Your task to perform on an android device: Add "razer thresher" to the cart on target, then select checkout. Image 0: 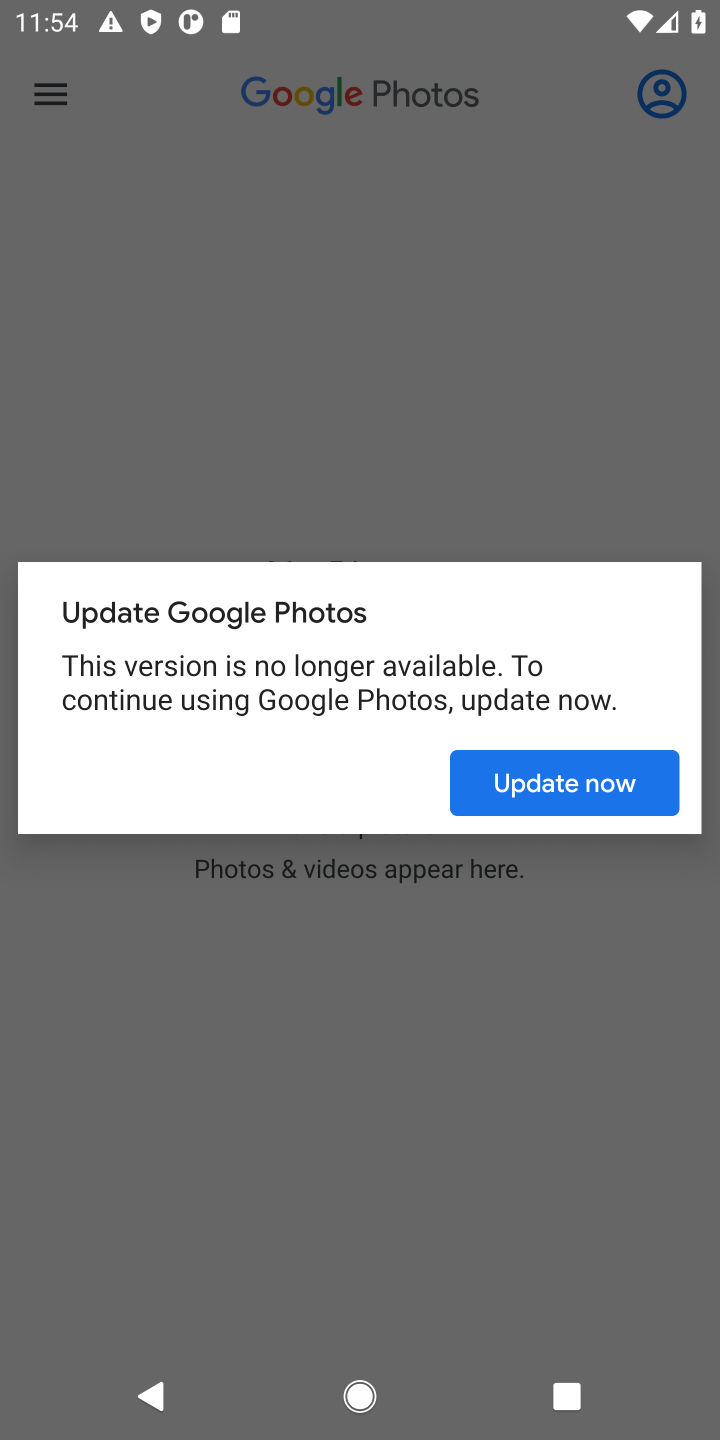
Step 0: press home button
Your task to perform on an android device: Add "razer thresher" to the cart on target, then select checkout. Image 1: 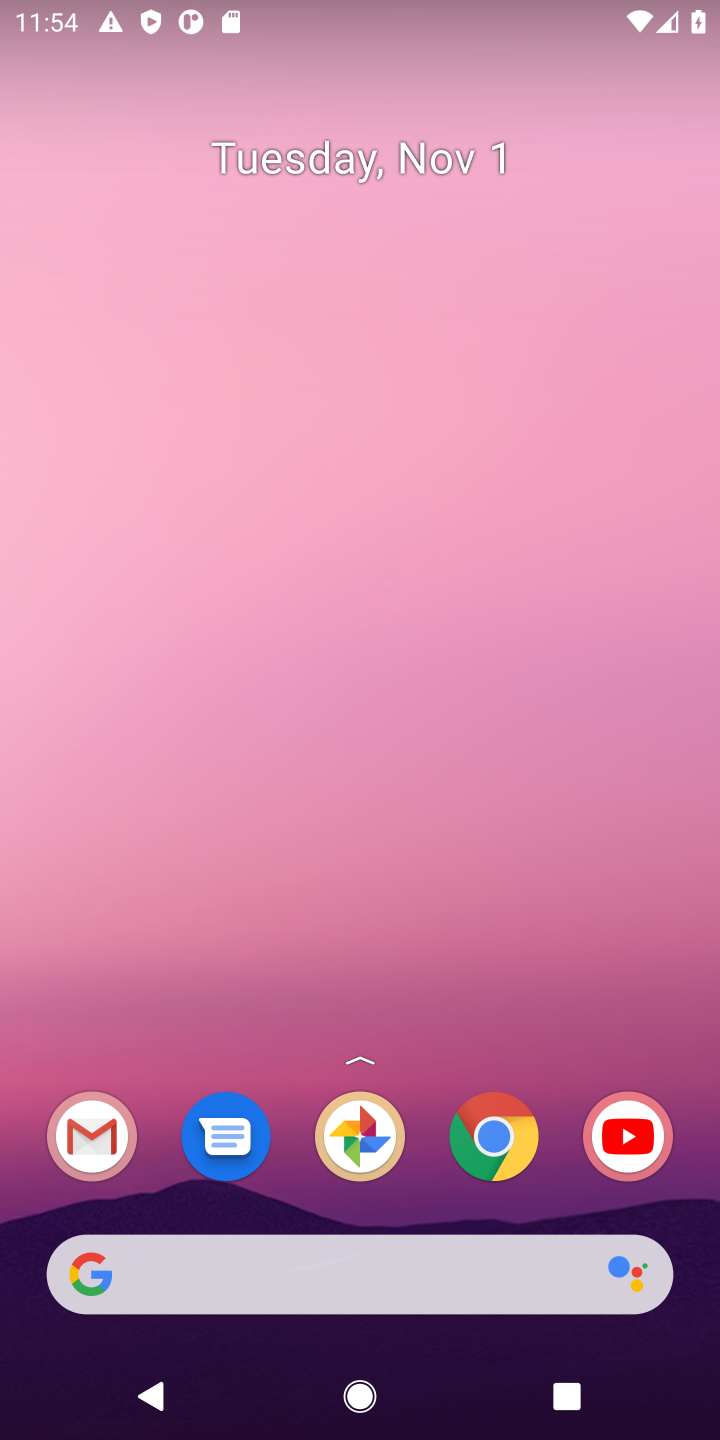
Step 1: click (491, 1148)
Your task to perform on an android device: Add "razer thresher" to the cart on target, then select checkout. Image 2: 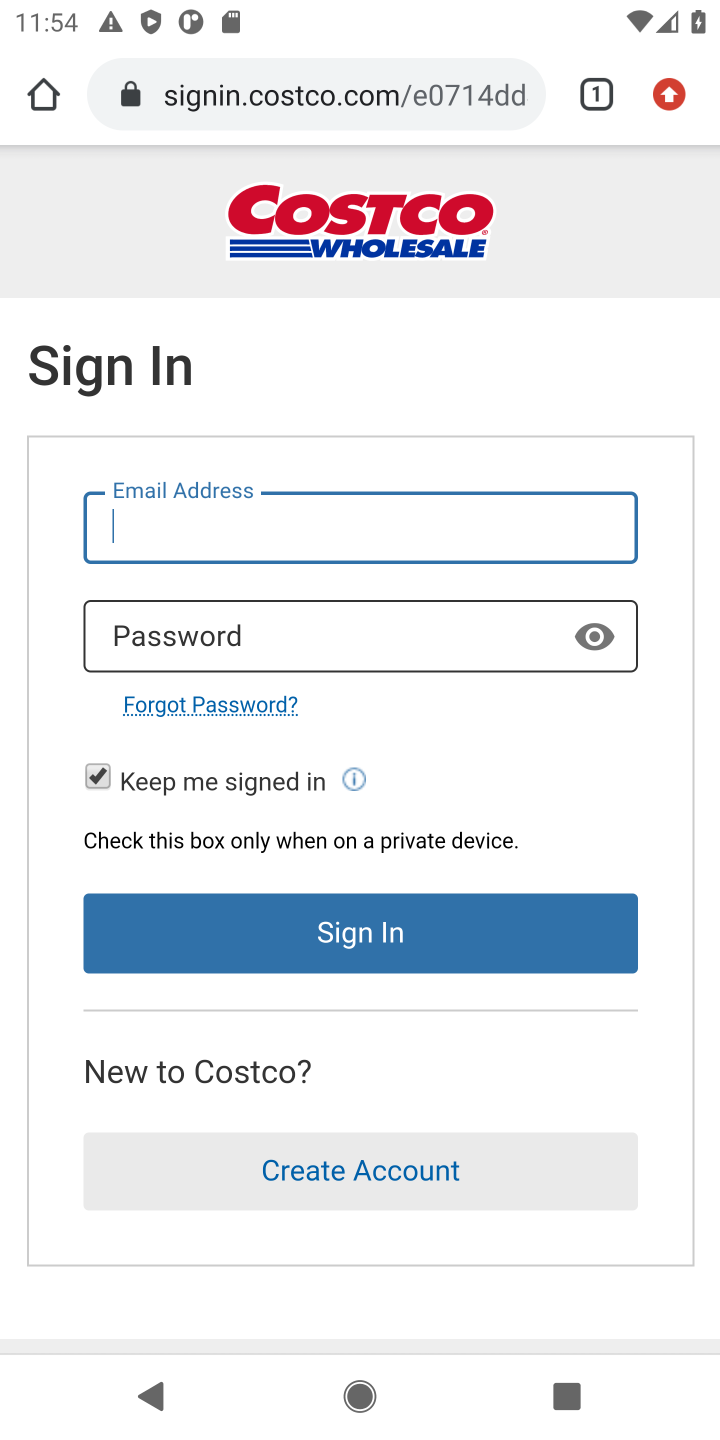
Step 2: click (311, 101)
Your task to perform on an android device: Add "razer thresher" to the cart on target, then select checkout. Image 3: 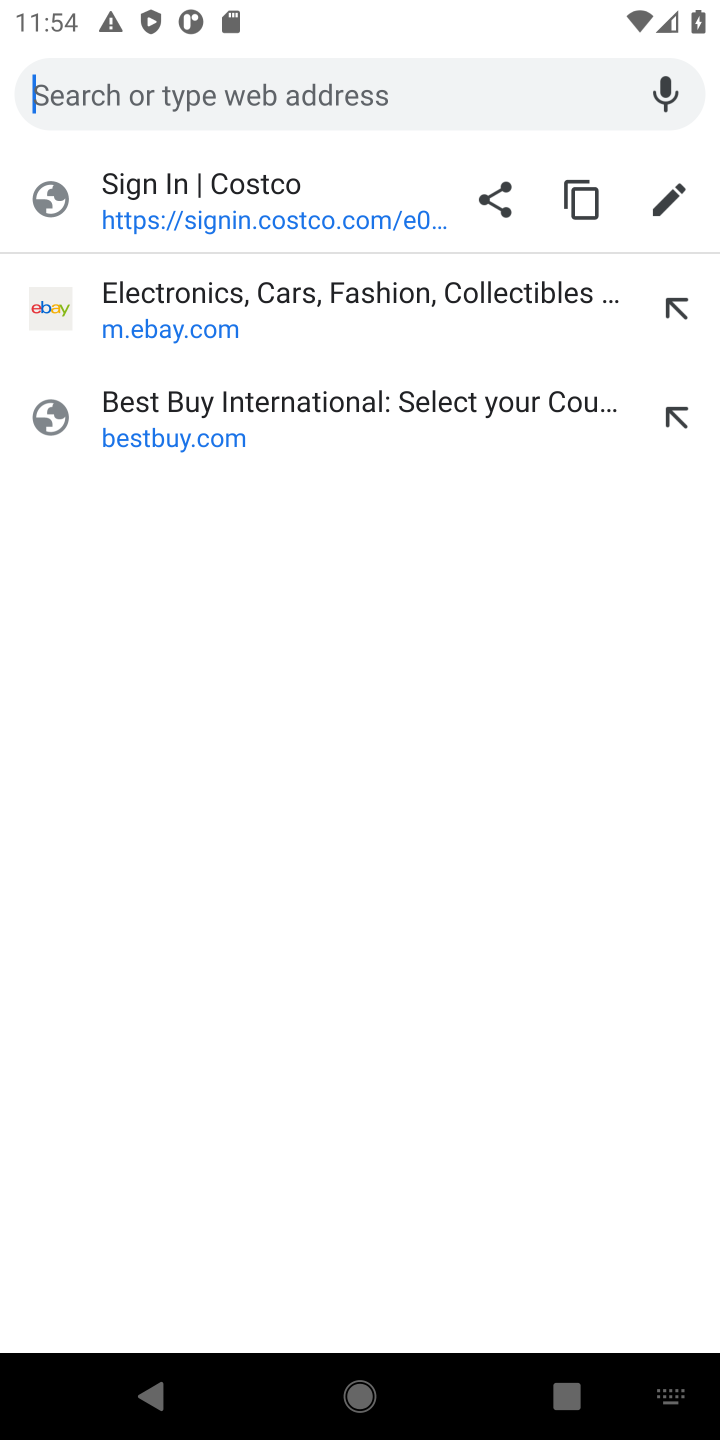
Step 3: type "target"
Your task to perform on an android device: Add "razer thresher" to the cart on target, then select checkout. Image 4: 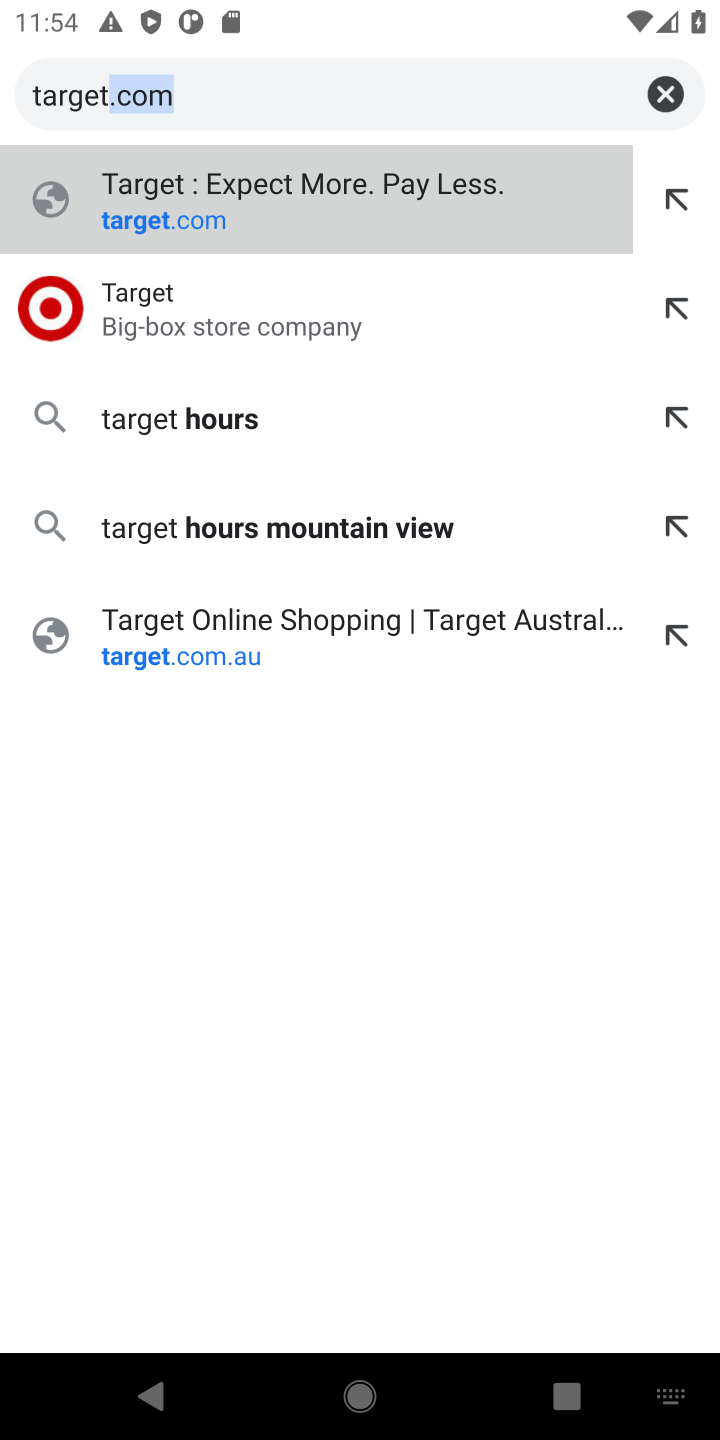
Step 4: type ""
Your task to perform on an android device: Add "razer thresher" to the cart on target, then select checkout. Image 5: 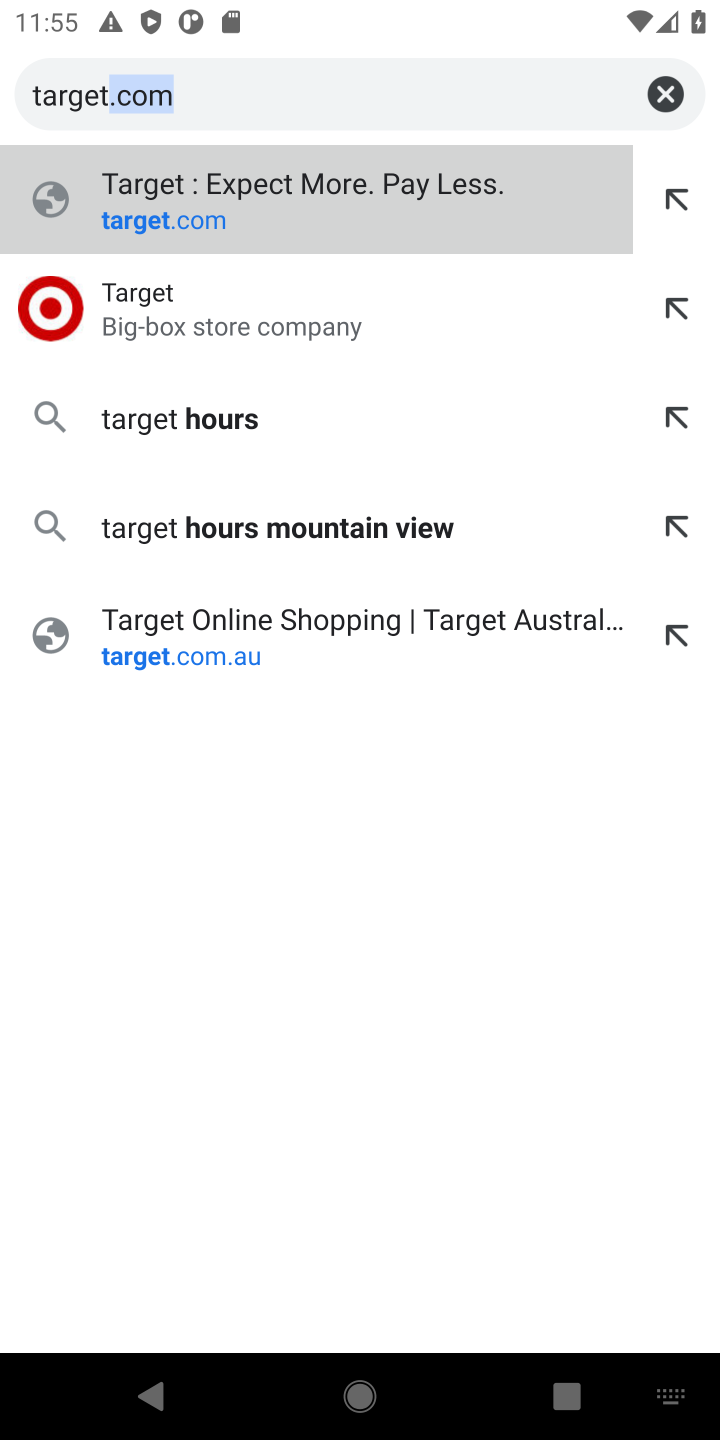
Step 5: press enter
Your task to perform on an android device: Add "razer thresher" to the cart on target, then select checkout. Image 6: 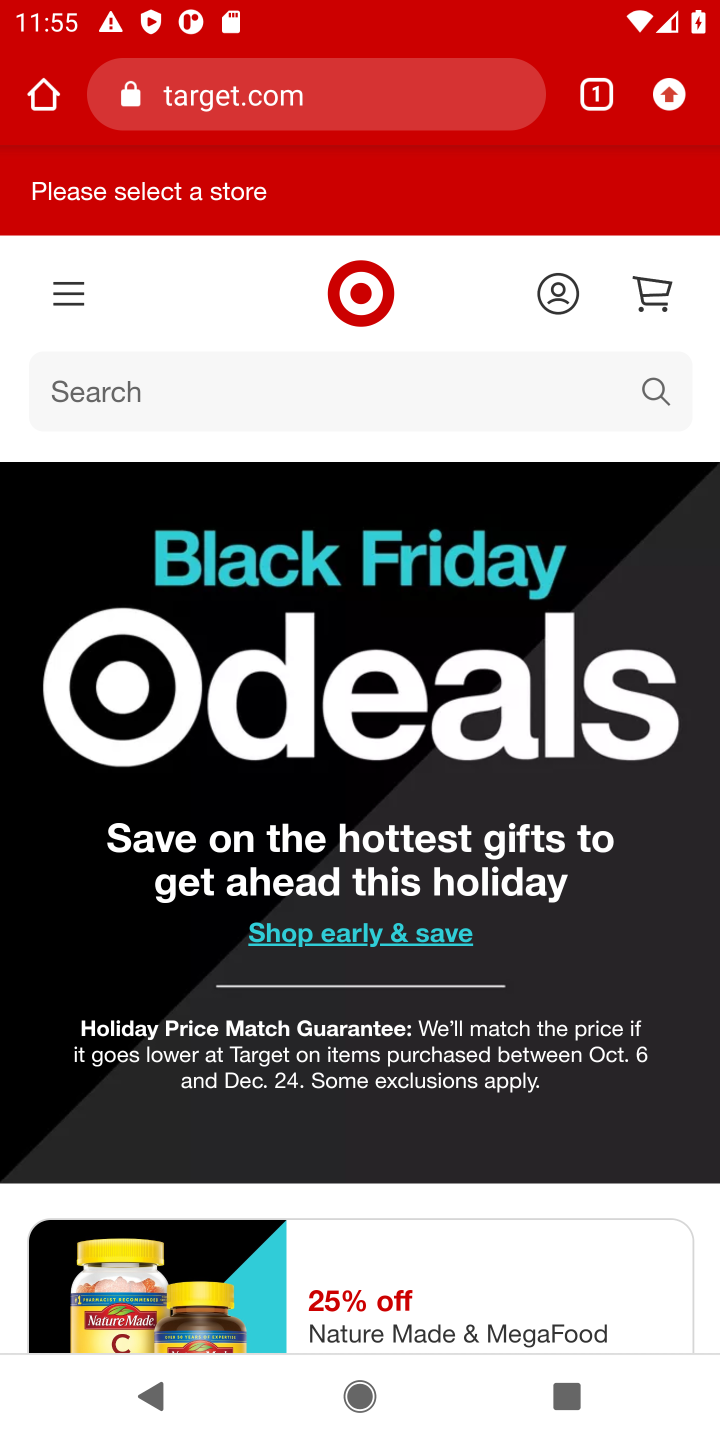
Step 6: click (365, 388)
Your task to perform on an android device: Add "razer thresher" to the cart on target, then select checkout. Image 7: 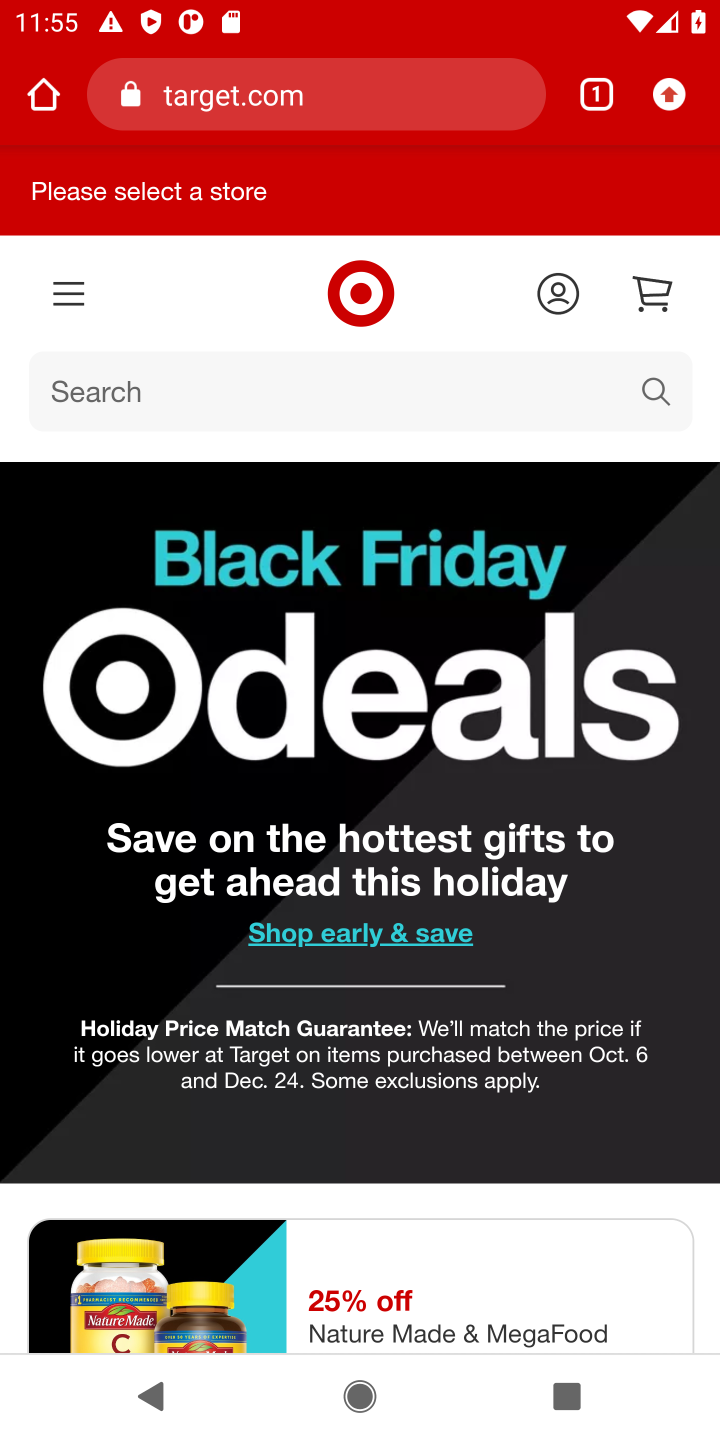
Step 7: type "razer thresher"
Your task to perform on an android device: Add "razer thresher" to the cart on target, then select checkout. Image 8: 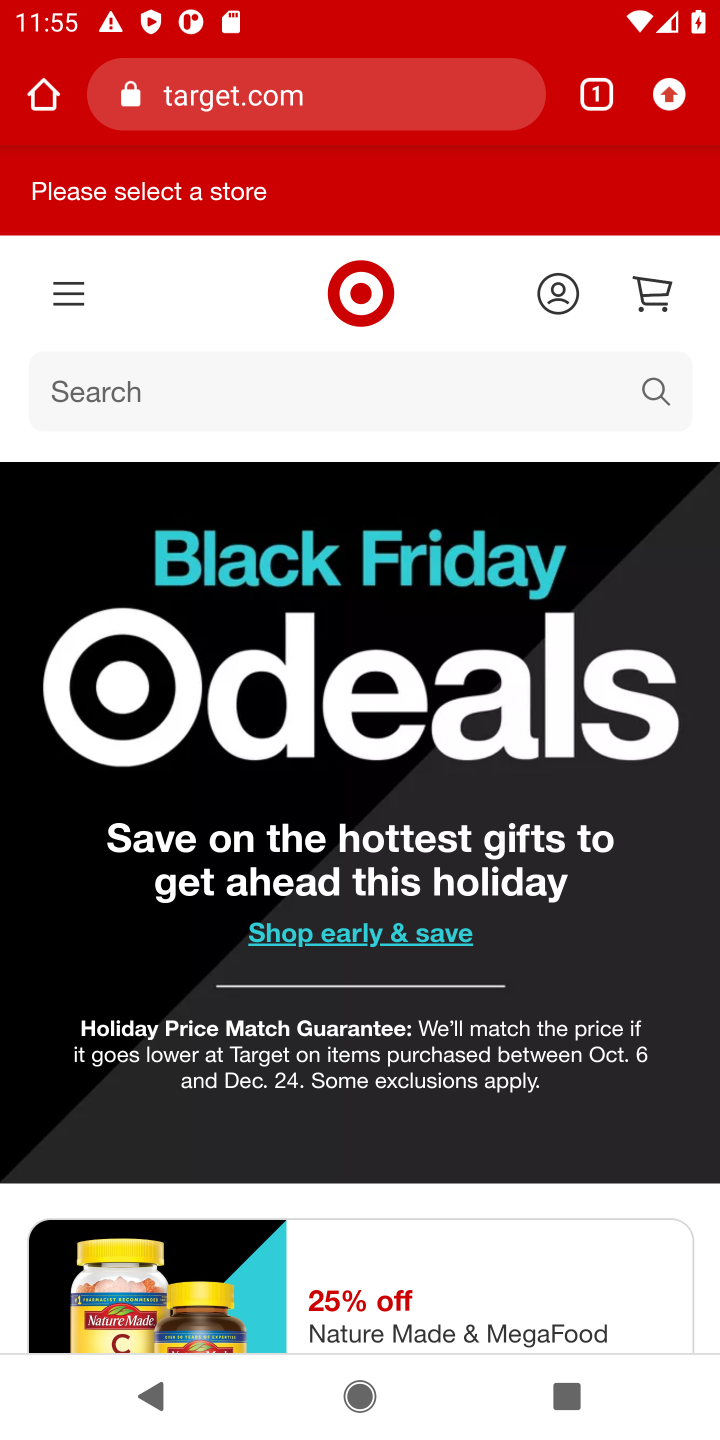
Step 8: click (380, 386)
Your task to perform on an android device: Add "razer thresher" to the cart on target, then select checkout. Image 9: 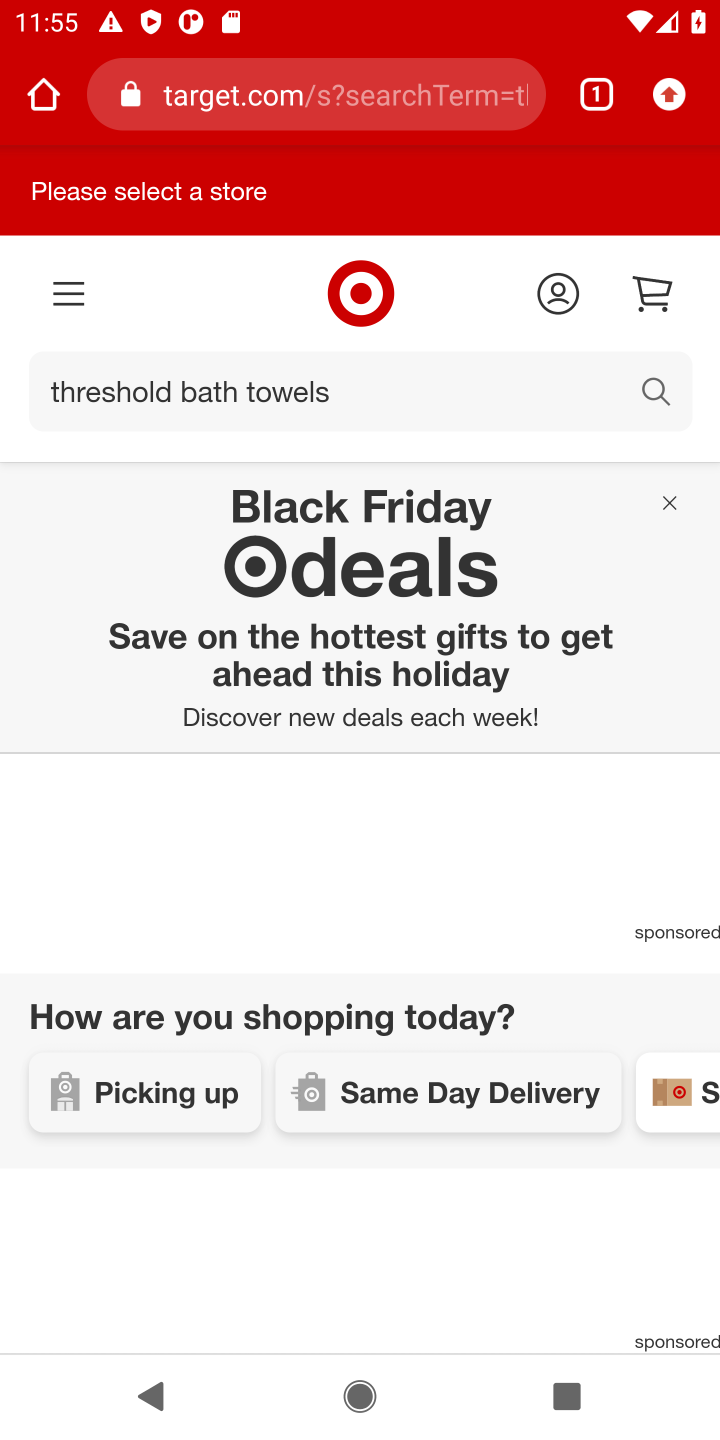
Step 9: click (526, 400)
Your task to perform on an android device: Add "razer thresher" to the cart on target, then select checkout. Image 10: 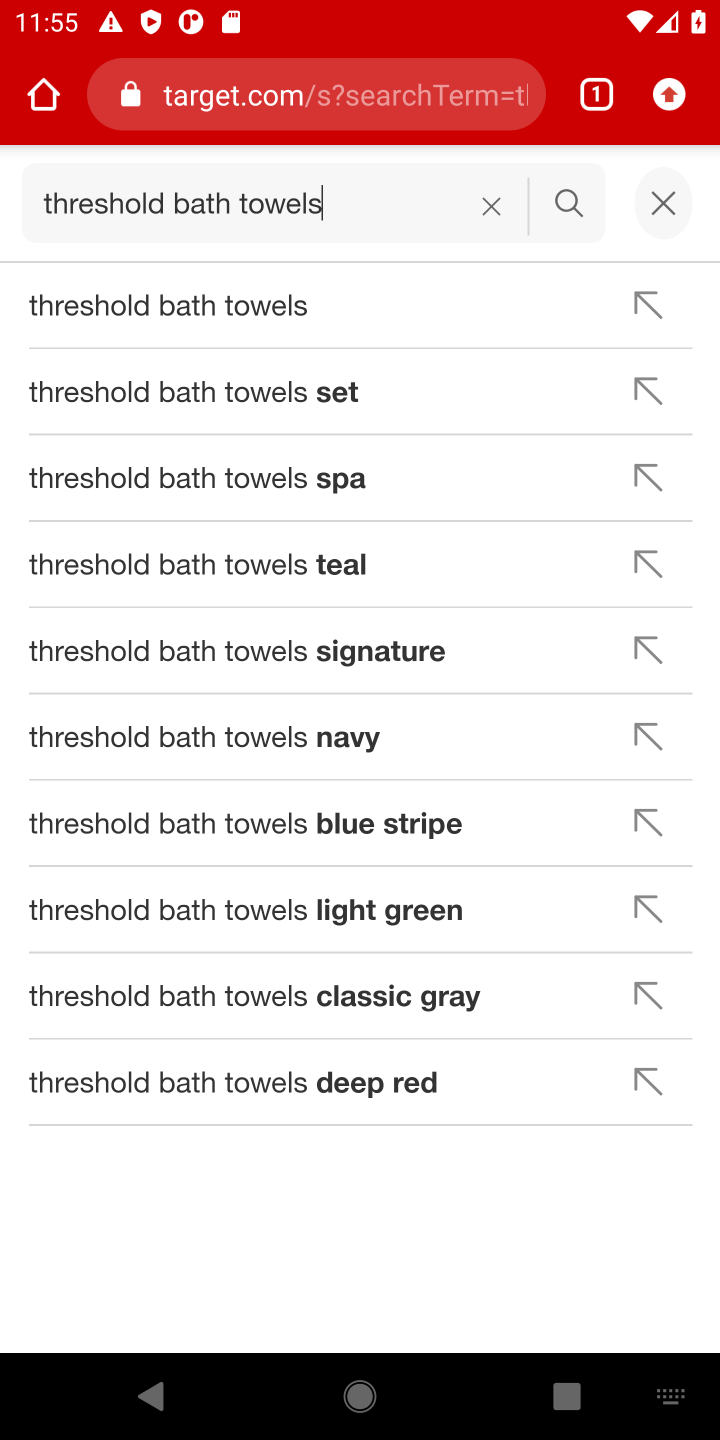
Step 10: click (488, 204)
Your task to perform on an android device: Add "razer thresher" to the cart on target, then select checkout. Image 11: 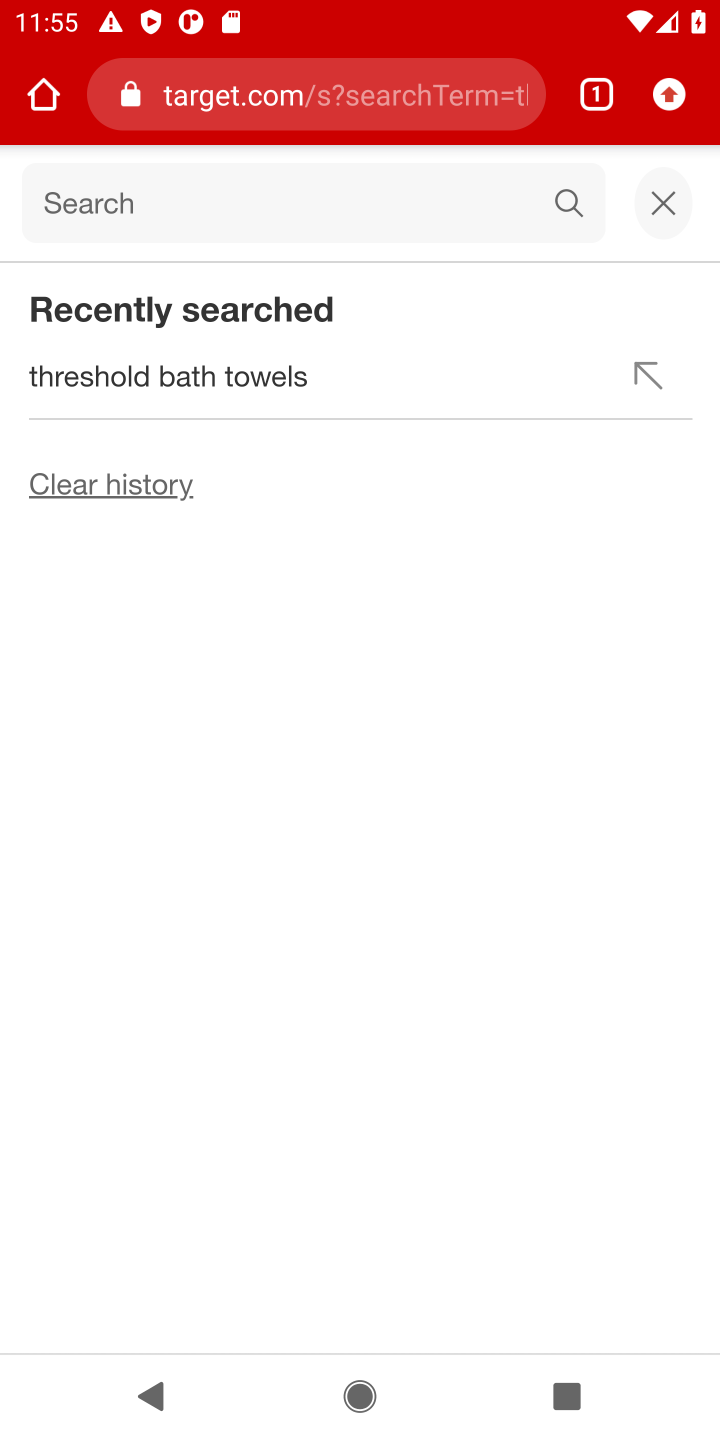
Step 11: type "razer thresher"
Your task to perform on an android device: Add "razer thresher" to the cart on target, then select checkout. Image 12: 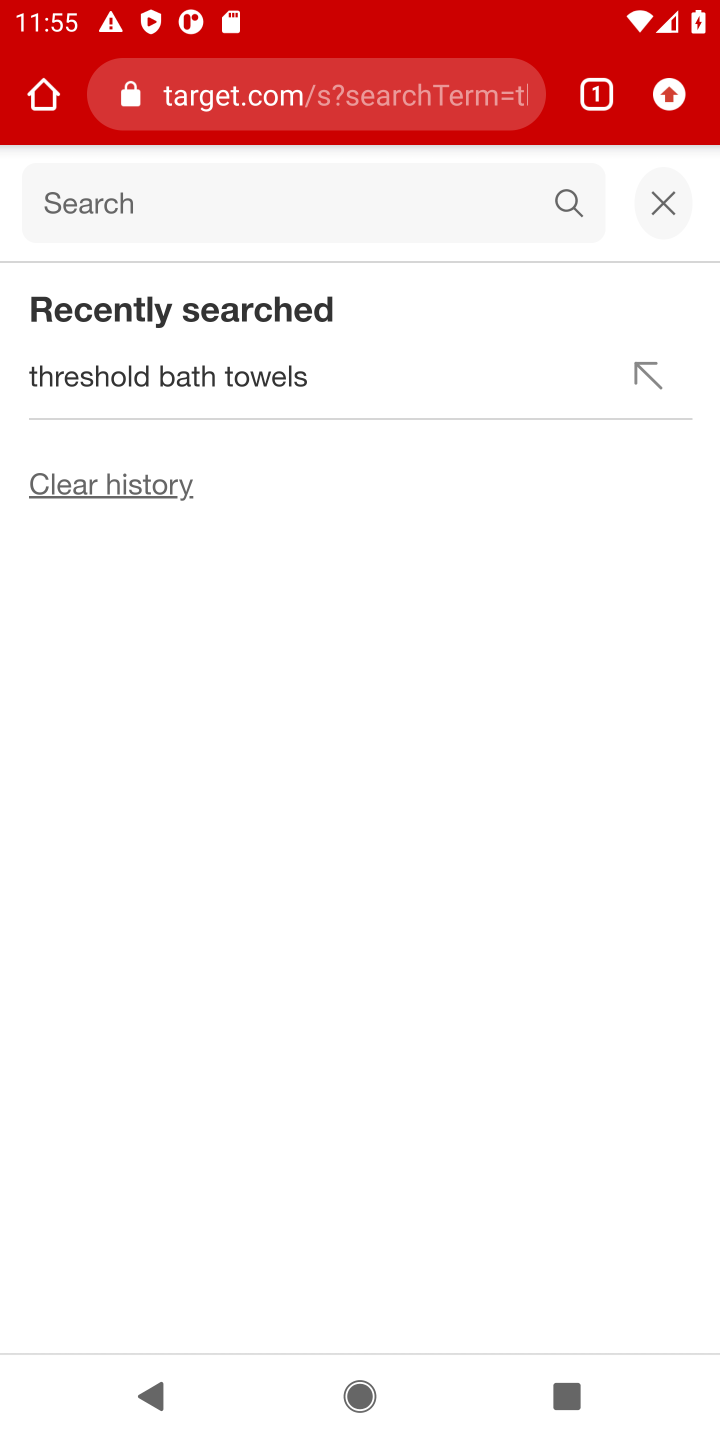
Step 12: type ""
Your task to perform on an android device: Add "razer thresher" to the cart on target, then select checkout. Image 13: 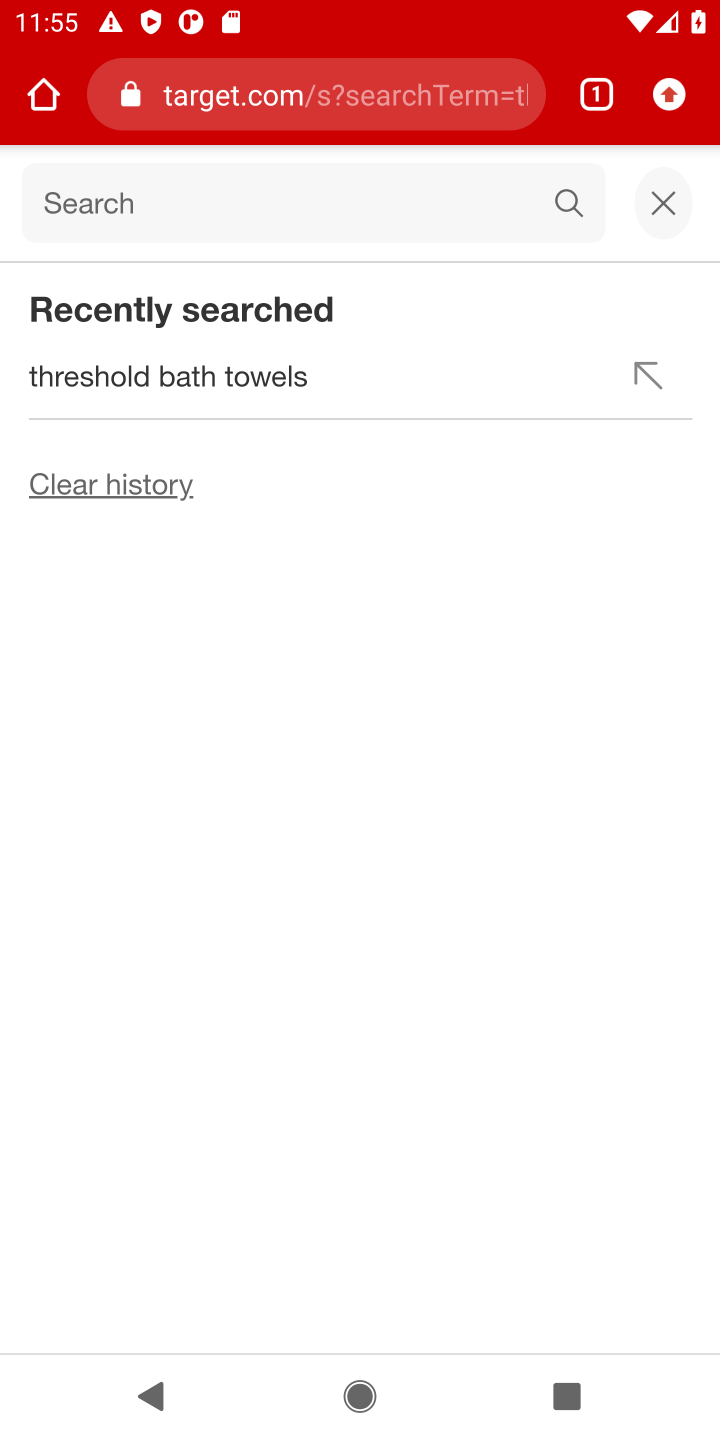
Step 13: click (420, 221)
Your task to perform on an android device: Add "razer thresher" to the cart on target, then select checkout. Image 14: 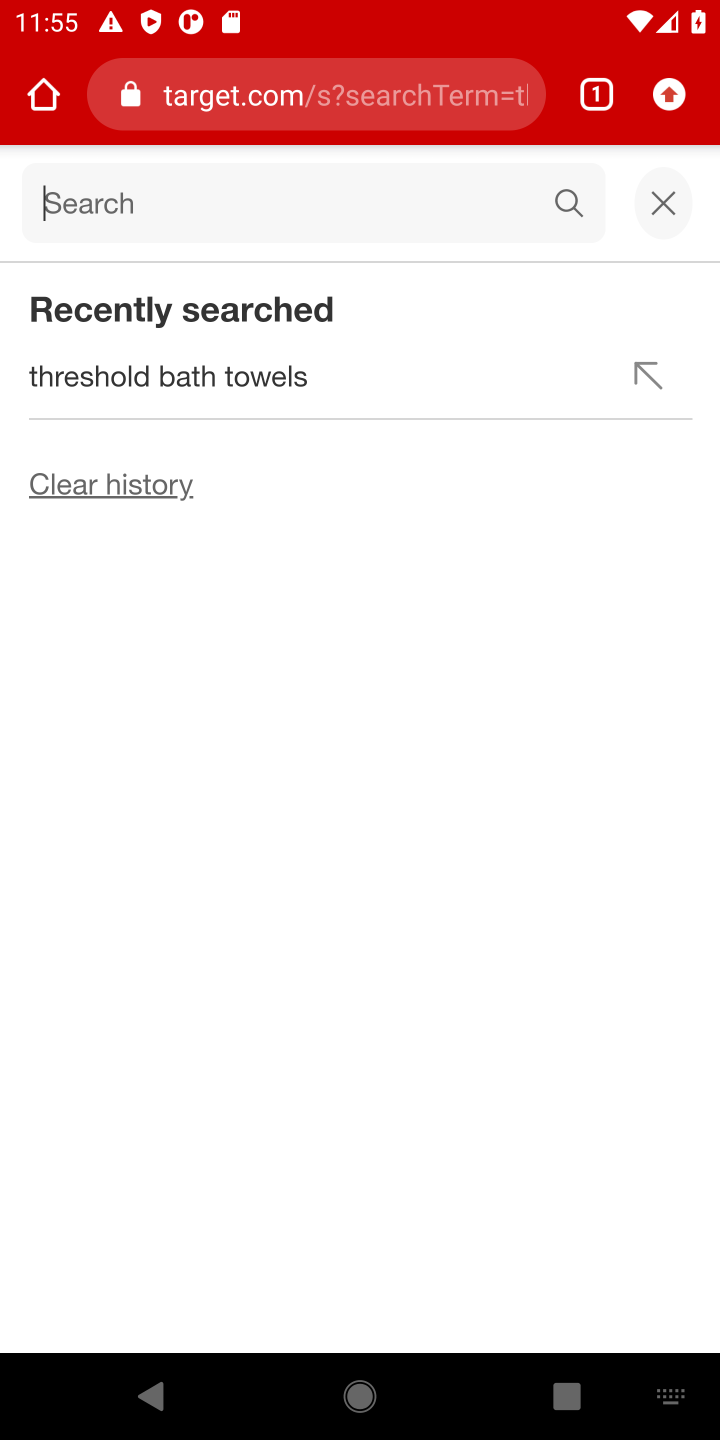
Step 14: type "razer thresher"
Your task to perform on an android device: Add "razer thresher" to the cart on target, then select checkout. Image 15: 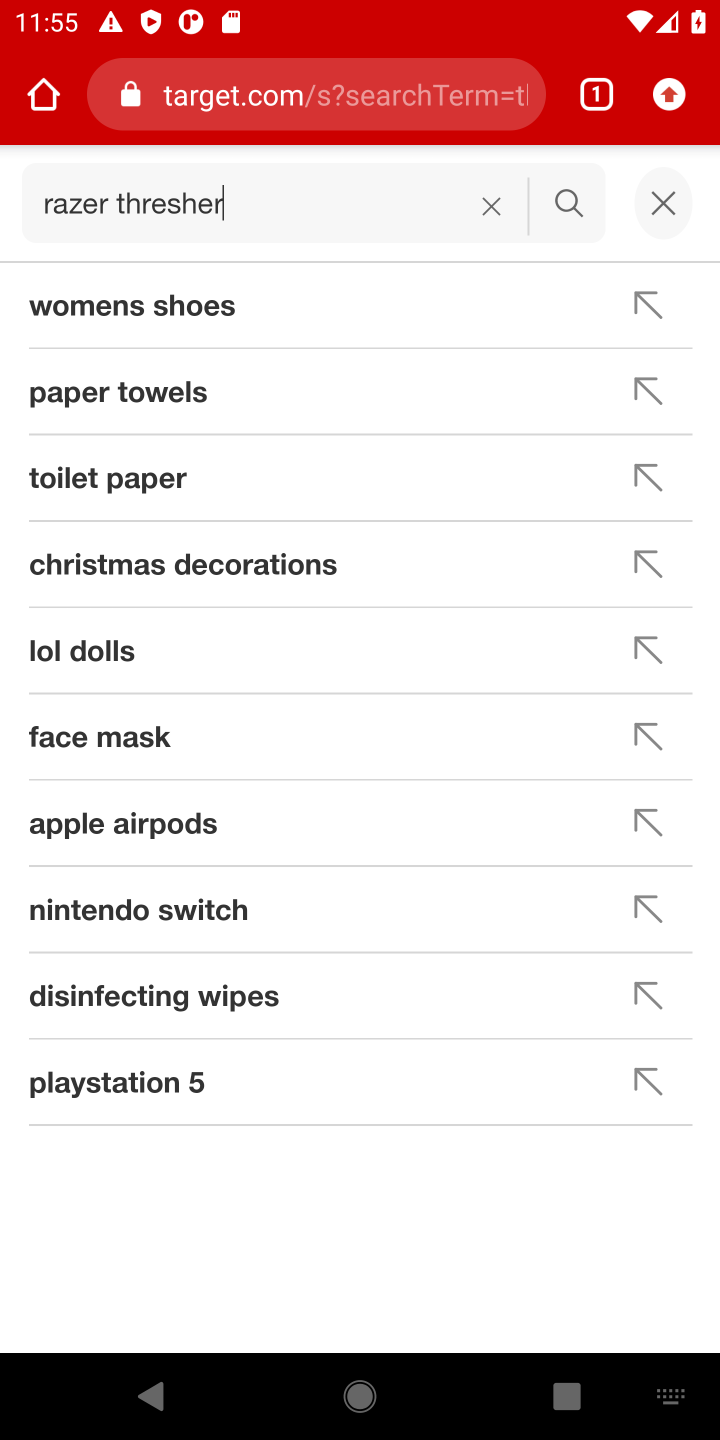
Step 15: type ""
Your task to perform on an android device: Add "razer thresher" to the cart on target, then select checkout. Image 16: 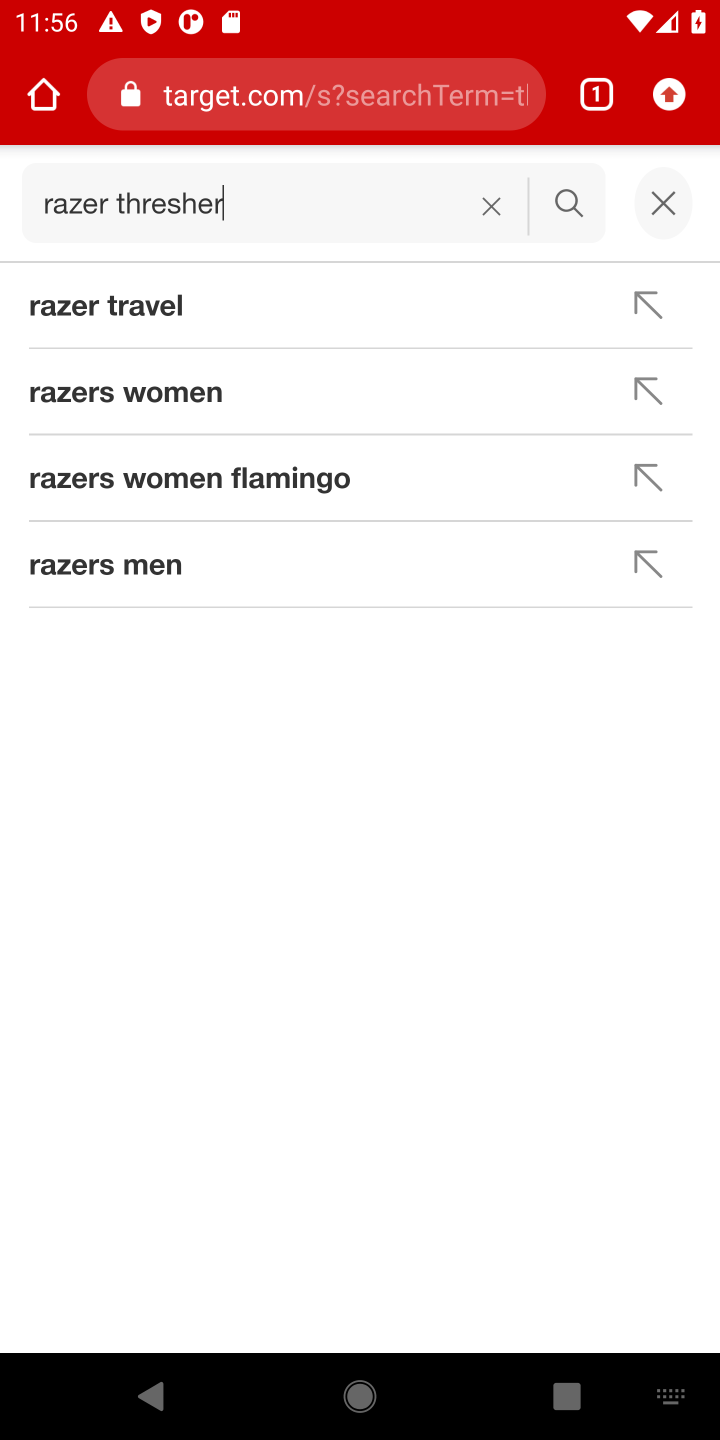
Step 16: press enter
Your task to perform on an android device: Add "razer thresher" to the cart on target, then select checkout. Image 17: 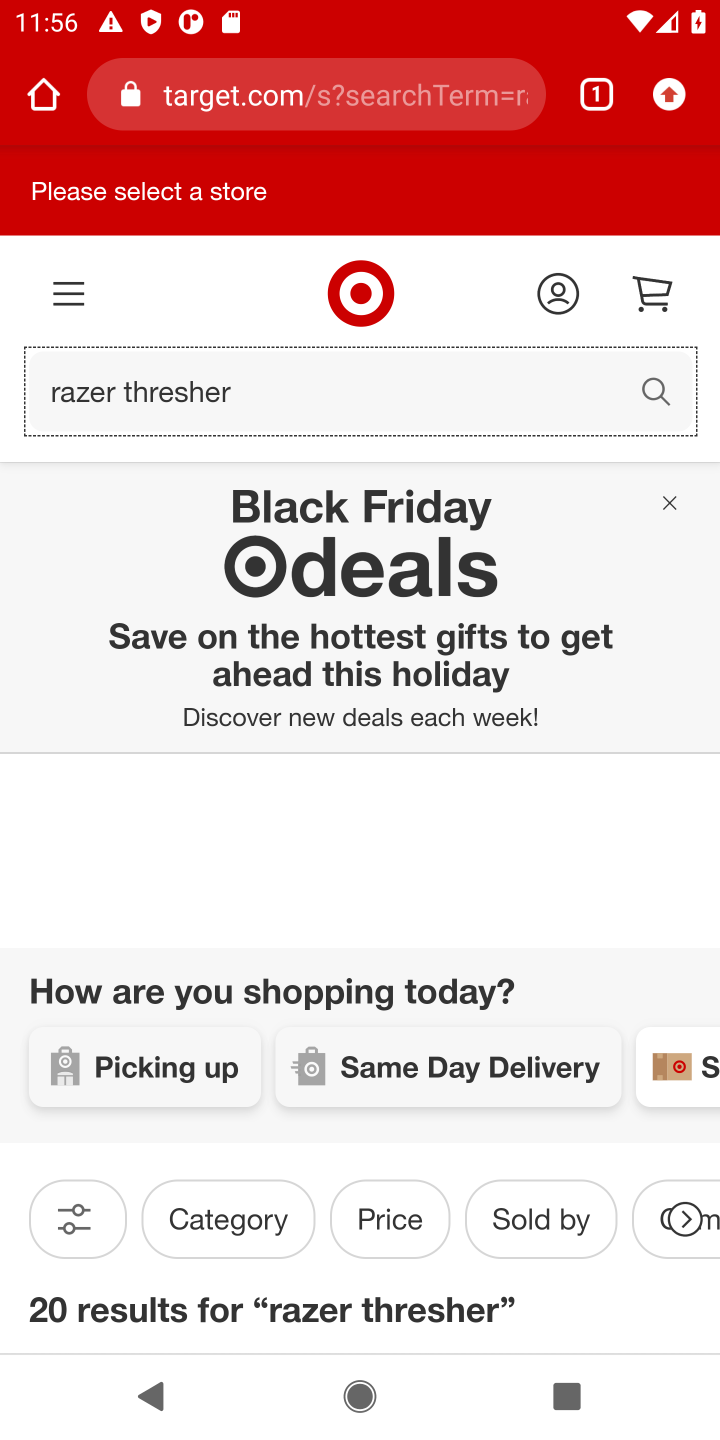
Step 17: drag from (322, 1193) to (299, 564)
Your task to perform on an android device: Add "razer thresher" to the cart on target, then select checkout. Image 18: 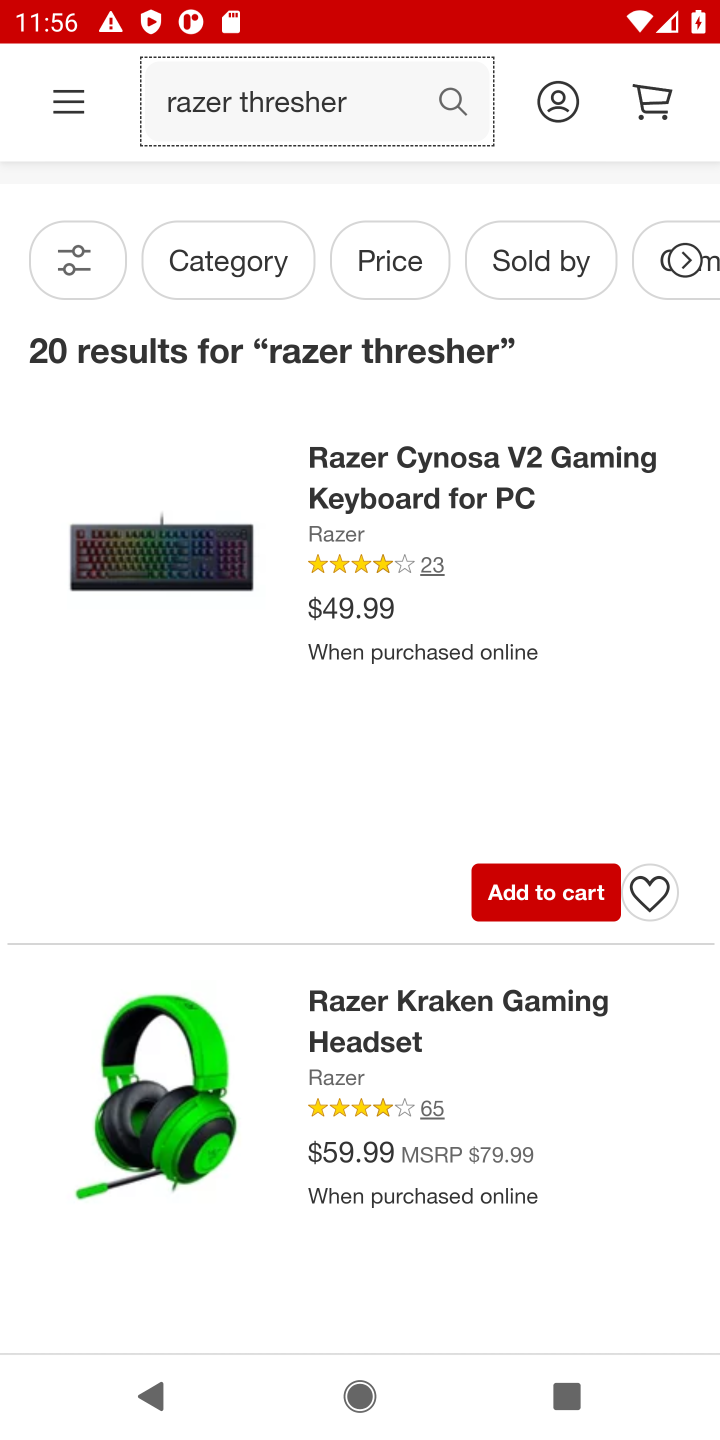
Step 18: drag from (368, 1074) to (371, 425)
Your task to perform on an android device: Add "razer thresher" to the cart on target, then select checkout. Image 19: 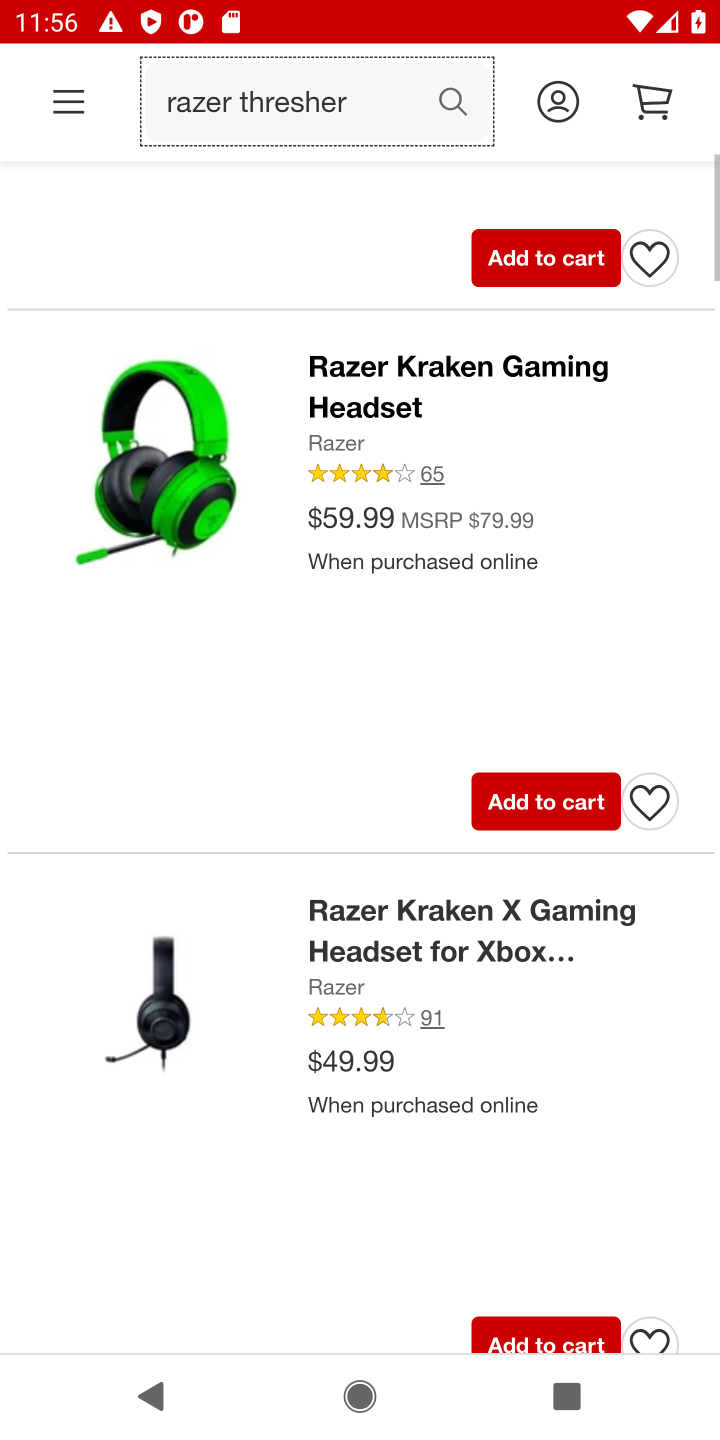
Step 19: drag from (414, 1218) to (456, 490)
Your task to perform on an android device: Add "razer thresher" to the cart on target, then select checkout. Image 20: 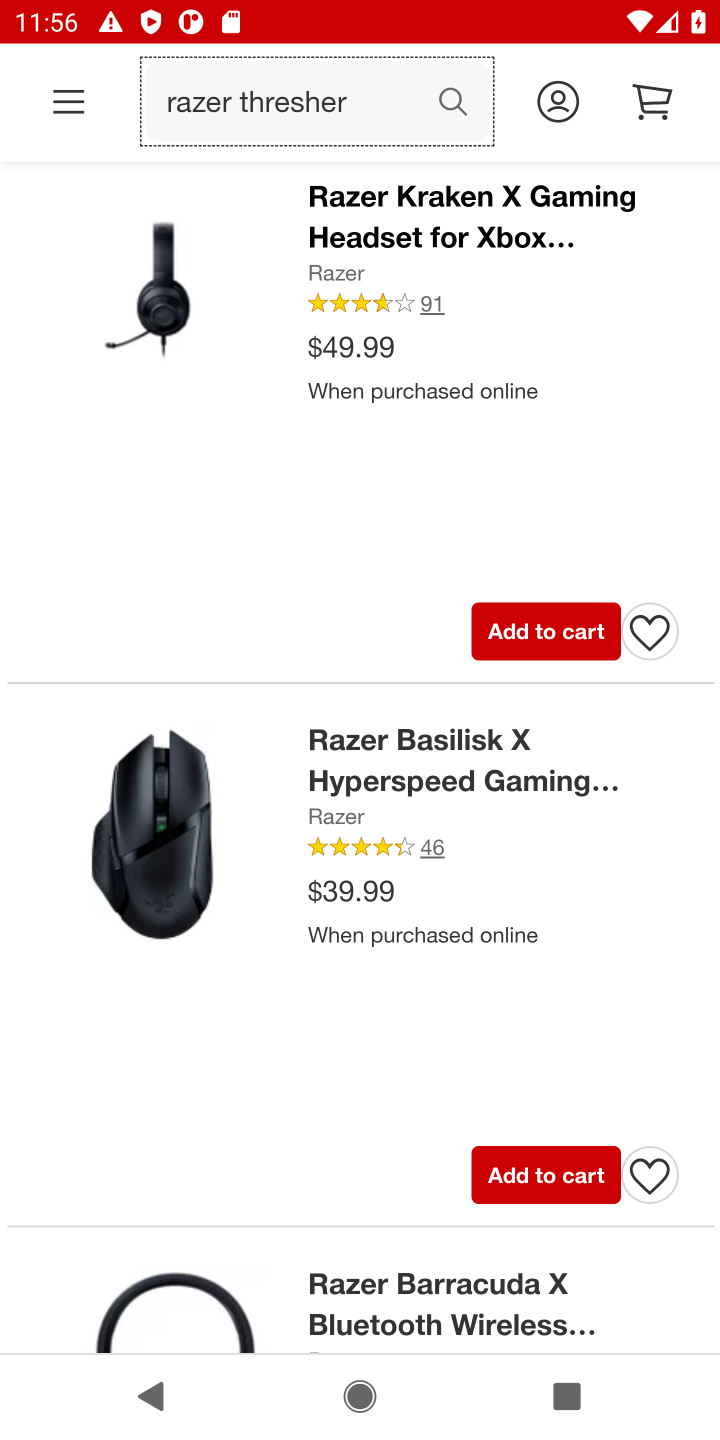
Step 20: drag from (478, 1051) to (464, 364)
Your task to perform on an android device: Add "razer thresher" to the cart on target, then select checkout. Image 21: 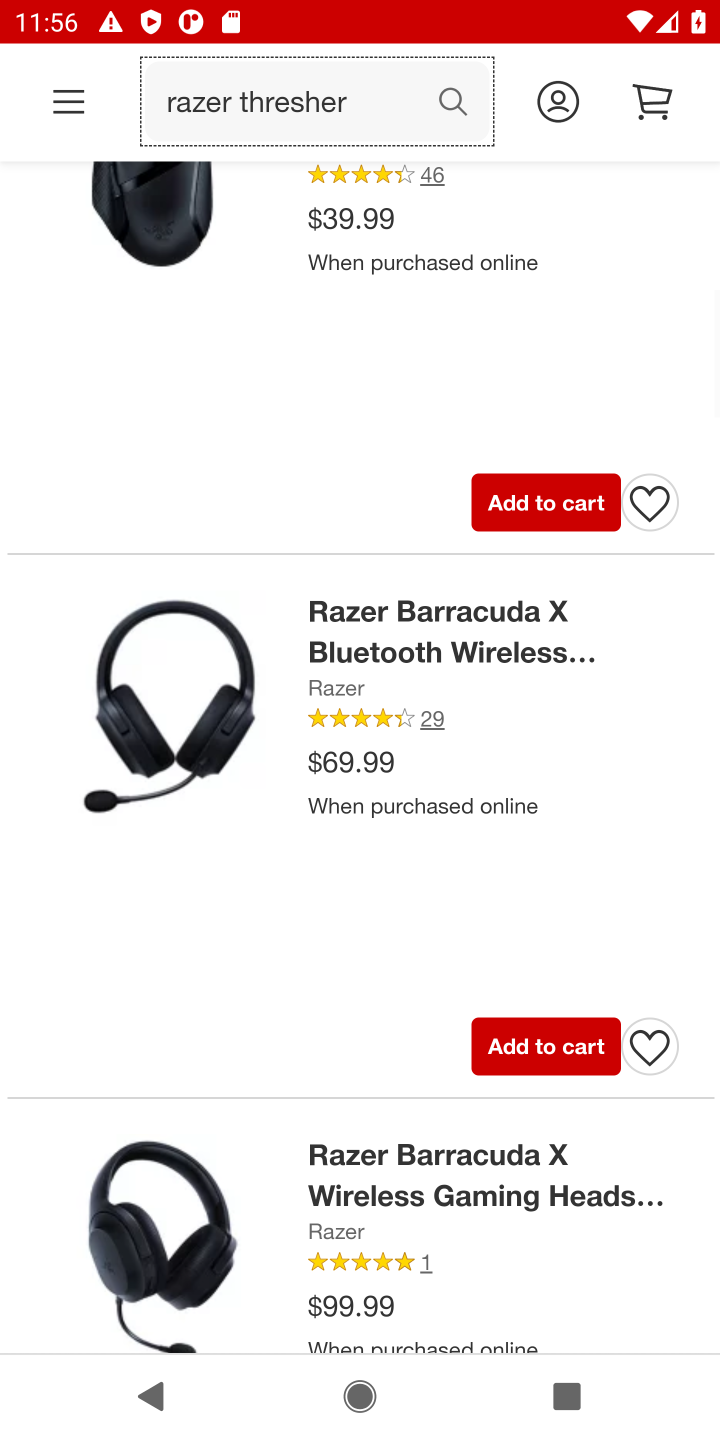
Step 21: drag from (486, 1080) to (471, 418)
Your task to perform on an android device: Add "razer thresher" to the cart on target, then select checkout. Image 22: 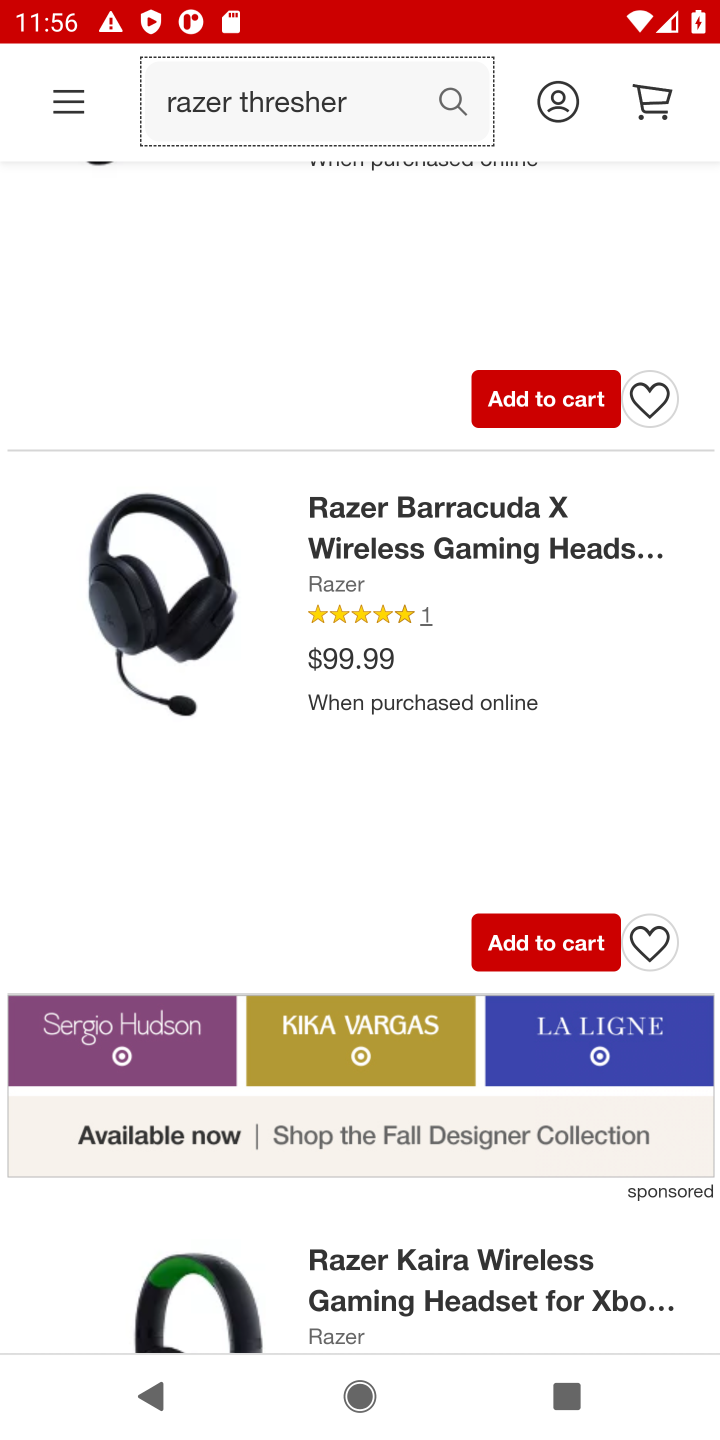
Step 22: drag from (458, 1259) to (454, 475)
Your task to perform on an android device: Add "razer thresher" to the cart on target, then select checkout. Image 23: 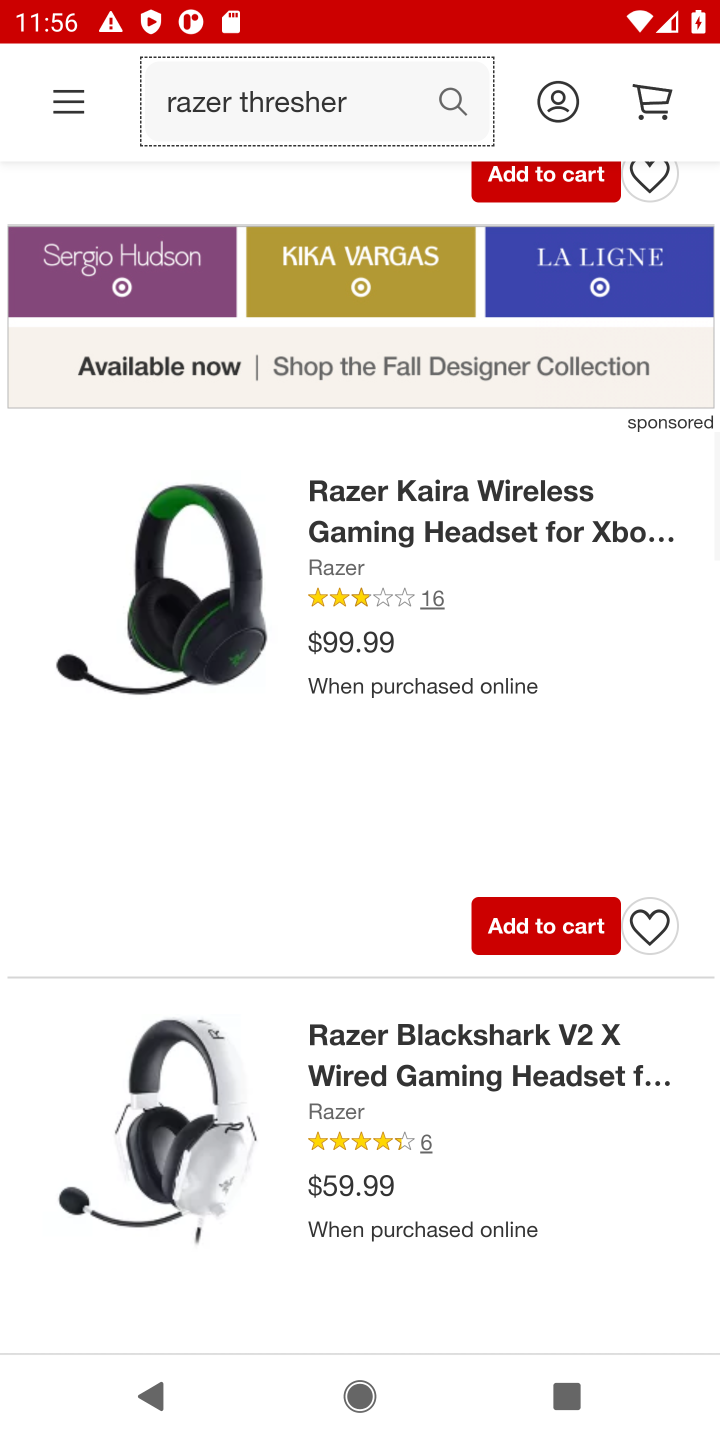
Step 23: drag from (448, 1328) to (461, 407)
Your task to perform on an android device: Add "razer thresher" to the cart on target, then select checkout. Image 24: 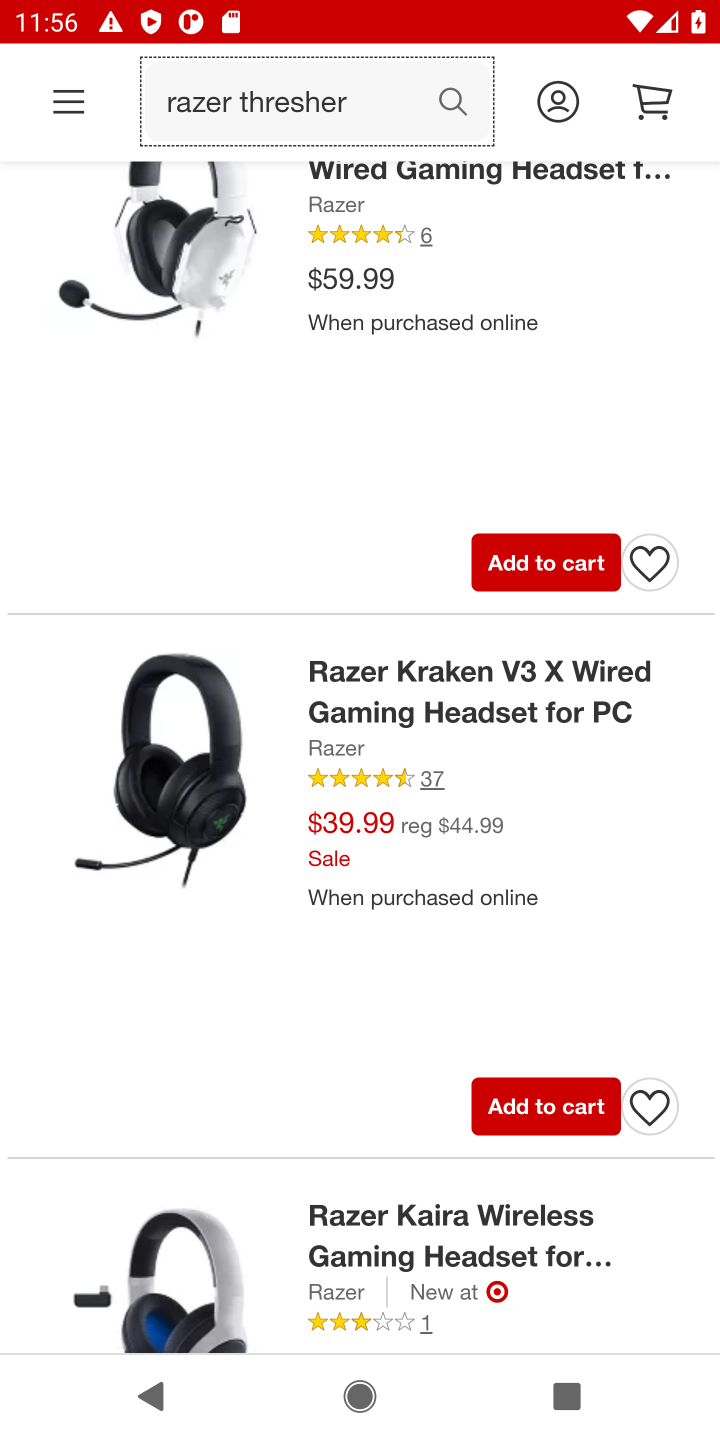
Step 24: drag from (410, 1069) to (404, 481)
Your task to perform on an android device: Add "razer thresher" to the cart on target, then select checkout. Image 25: 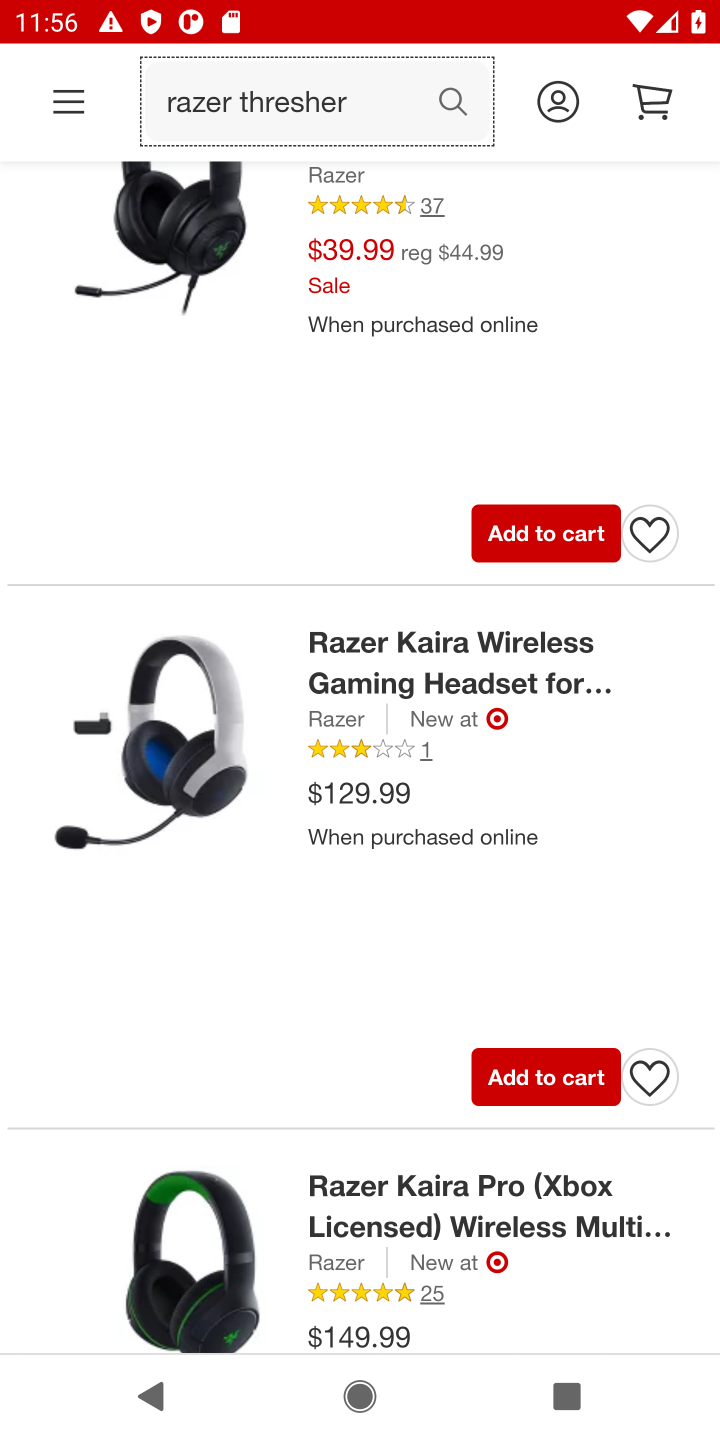
Step 25: drag from (377, 1097) to (402, 543)
Your task to perform on an android device: Add "razer thresher" to the cart on target, then select checkout. Image 26: 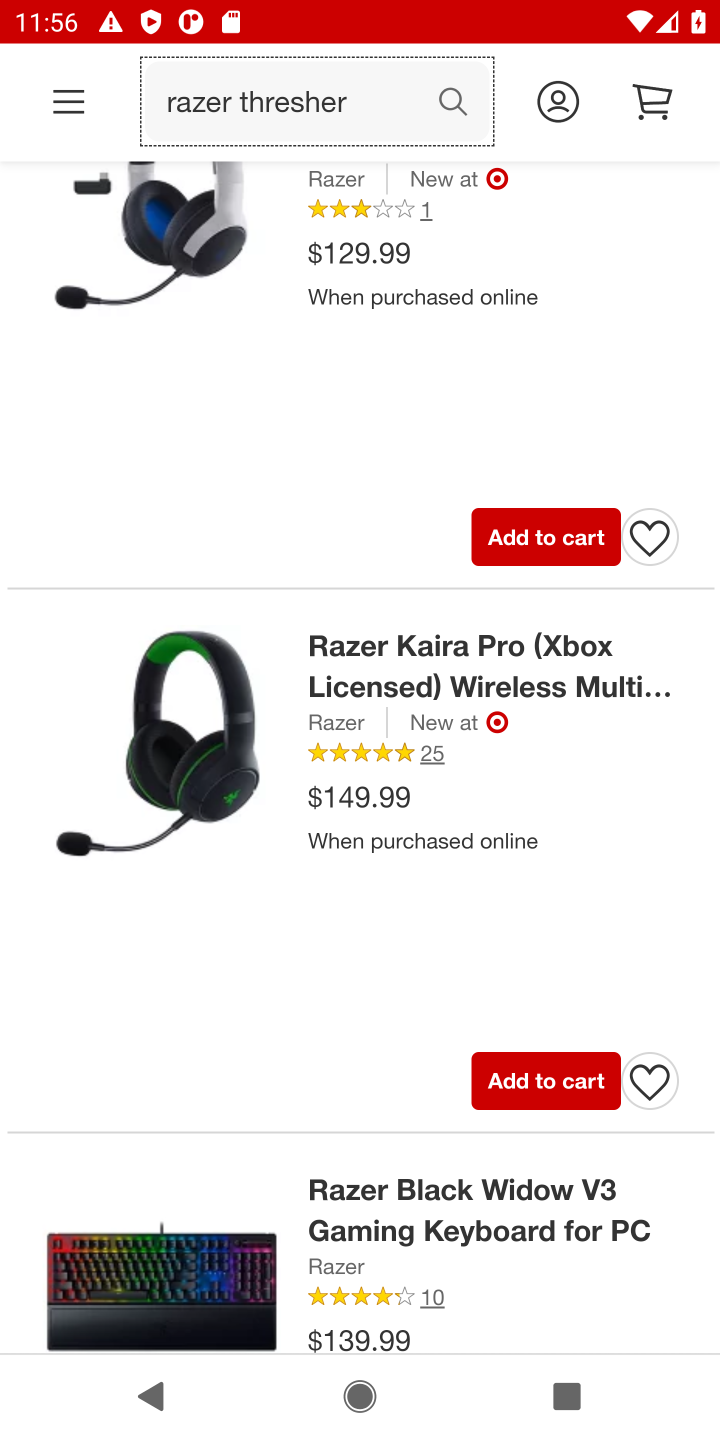
Step 26: drag from (444, 1238) to (456, 609)
Your task to perform on an android device: Add "razer thresher" to the cart on target, then select checkout. Image 27: 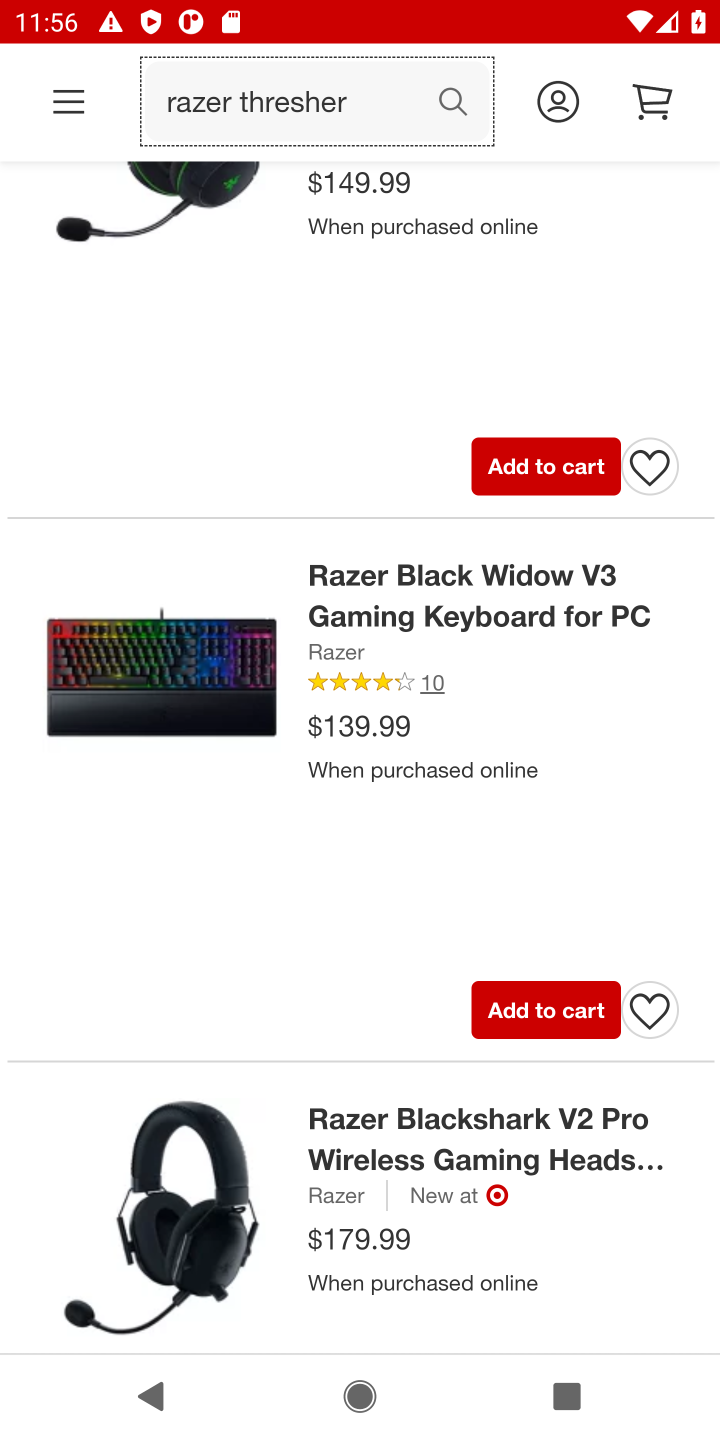
Step 27: drag from (473, 1217) to (467, 601)
Your task to perform on an android device: Add "razer thresher" to the cart on target, then select checkout. Image 28: 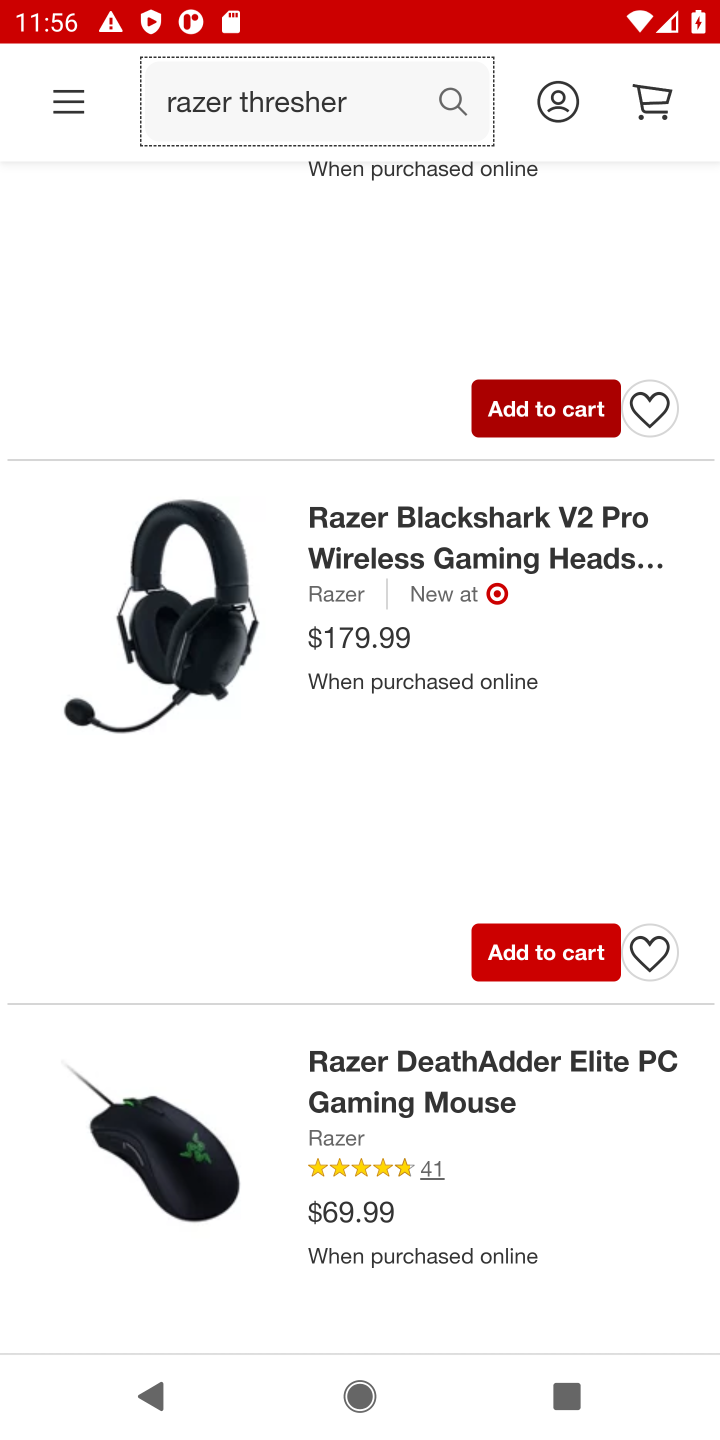
Step 28: drag from (508, 1230) to (463, 579)
Your task to perform on an android device: Add "razer thresher" to the cart on target, then select checkout. Image 29: 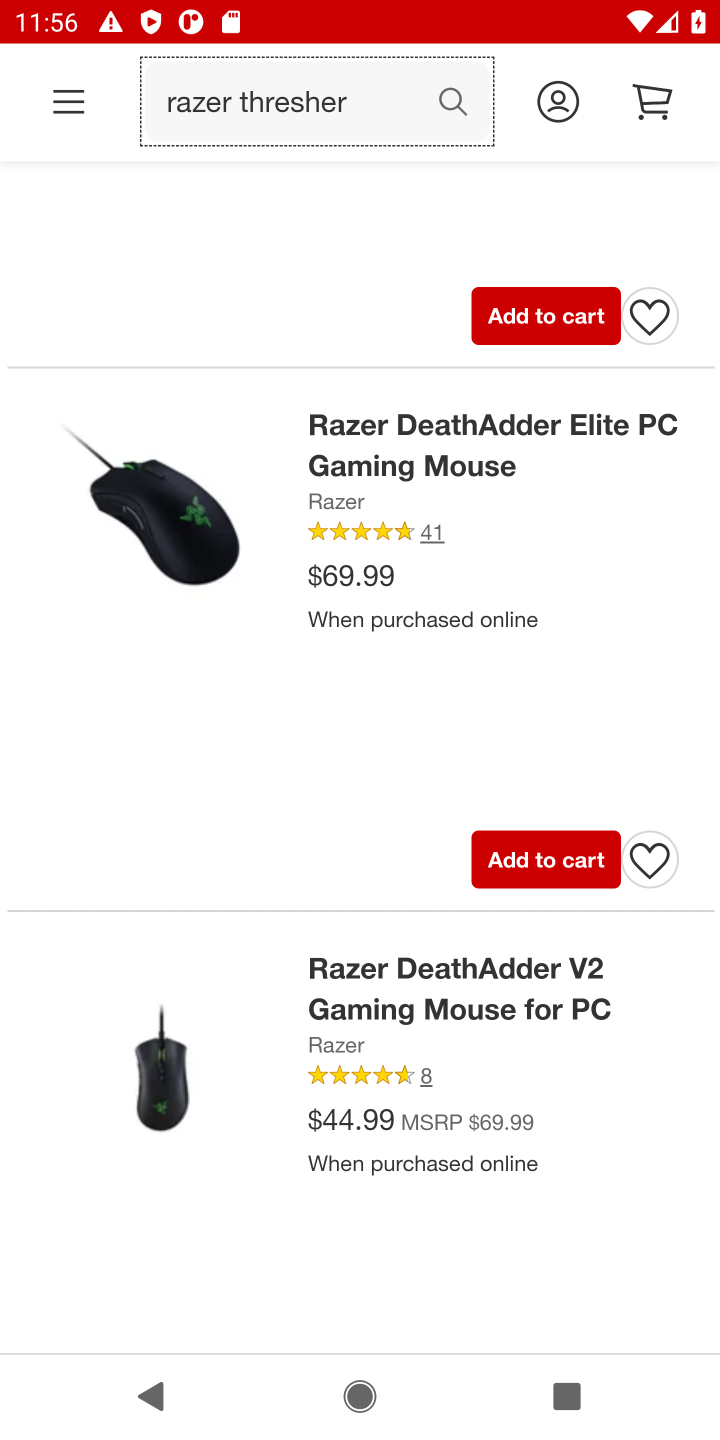
Step 29: drag from (446, 949) to (435, 615)
Your task to perform on an android device: Add "razer thresher" to the cart on target, then select checkout. Image 30: 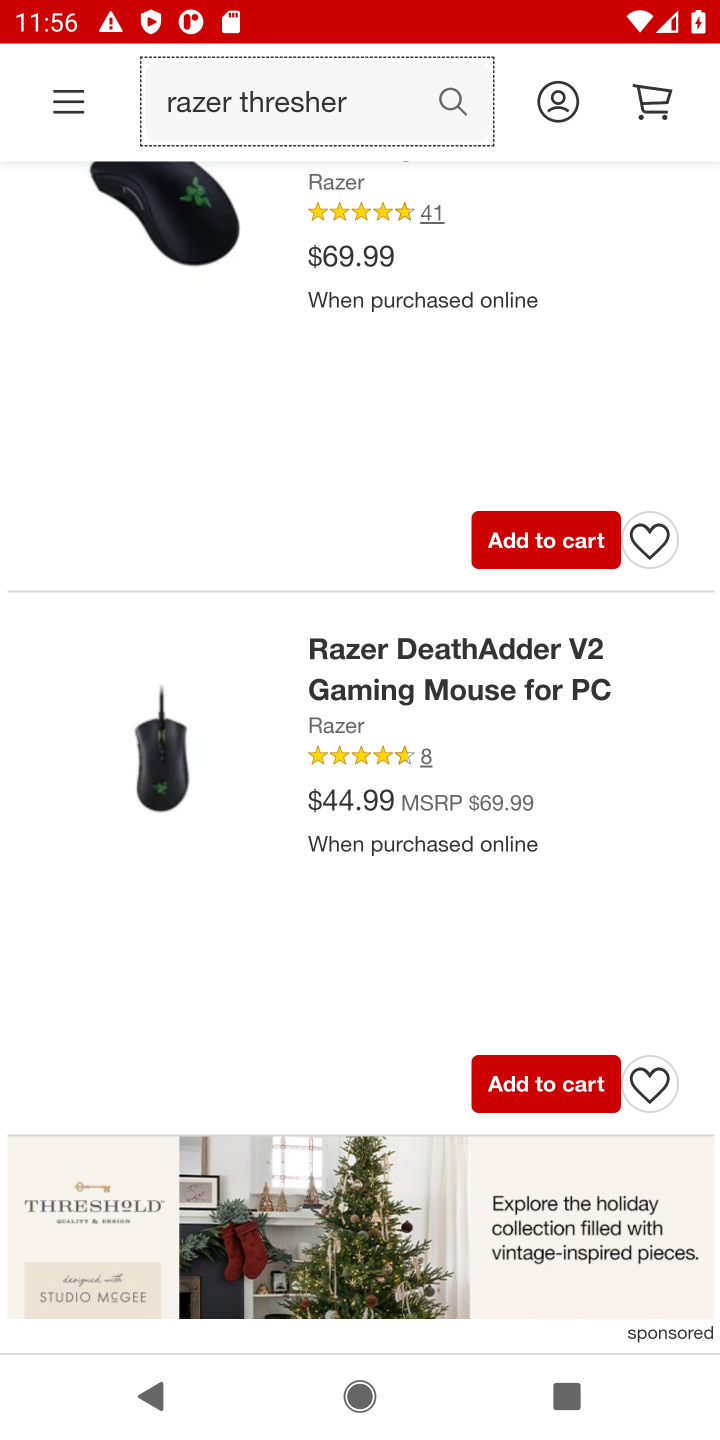
Step 30: drag from (366, 682) to (356, 456)
Your task to perform on an android device: Add "razer thresher" to the cart on target, then select checkout. Image 31: 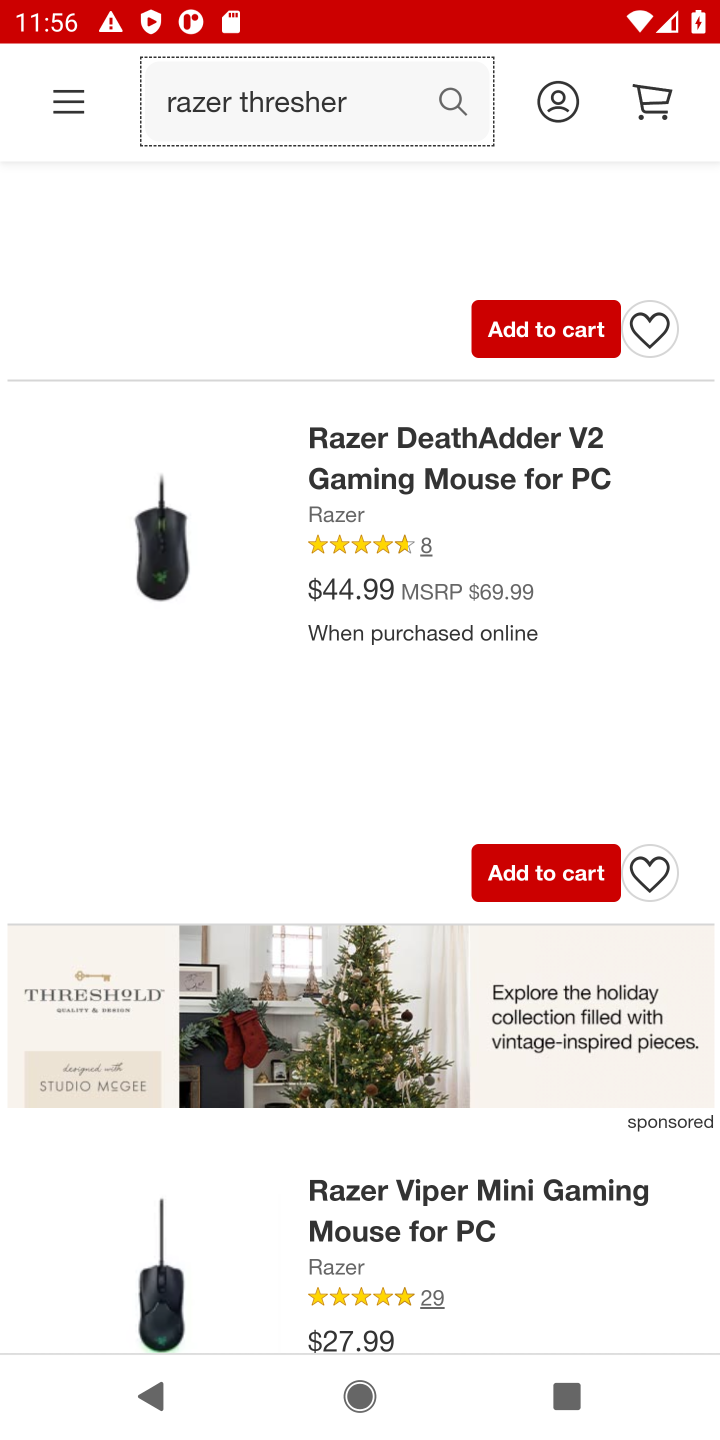
Step 31: drag from (390, 1228) to (409, 357)
Your task to perform on an android device: Add "razer thresher" to the cart on target, then select checkout. Image 32: 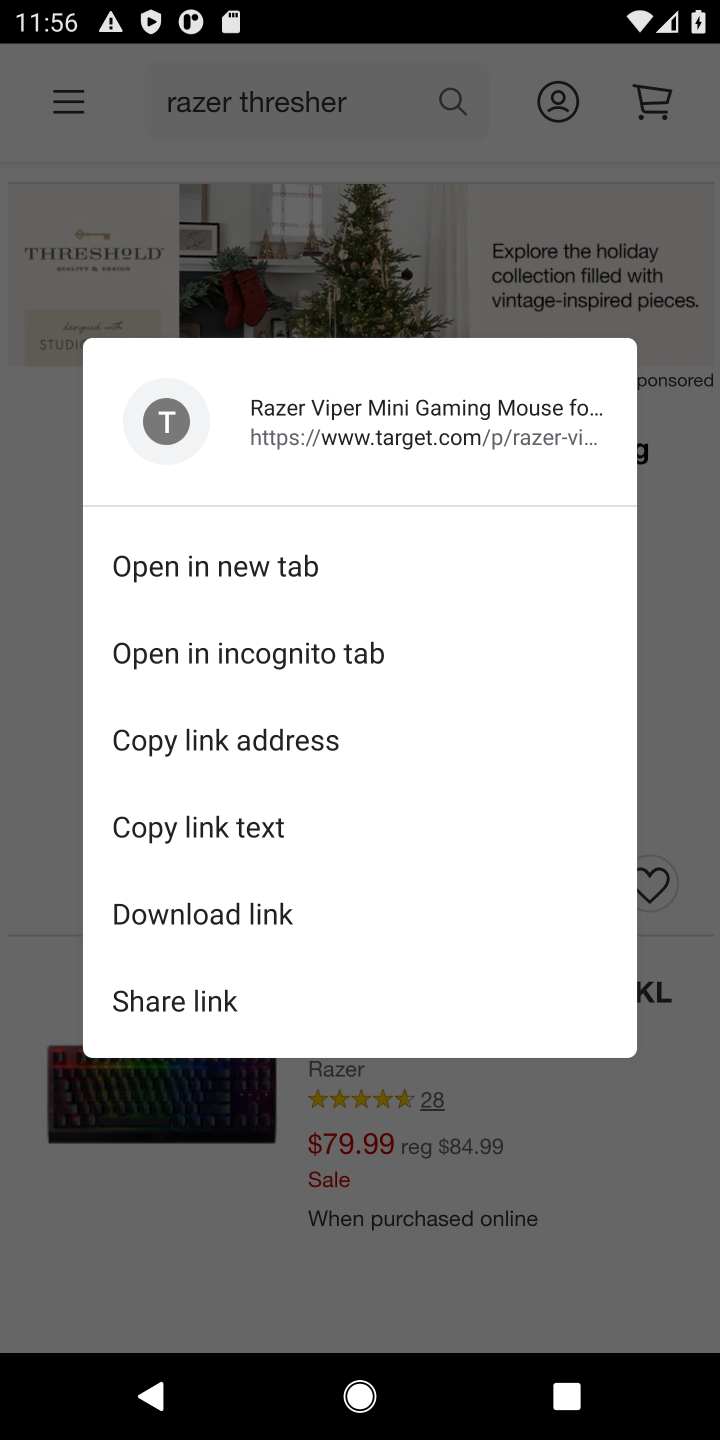
Step 32: click (494, 1231)
Your task to perform on an android device: Add "razer thresher" to the cart on target, then select checkout. Image 33: 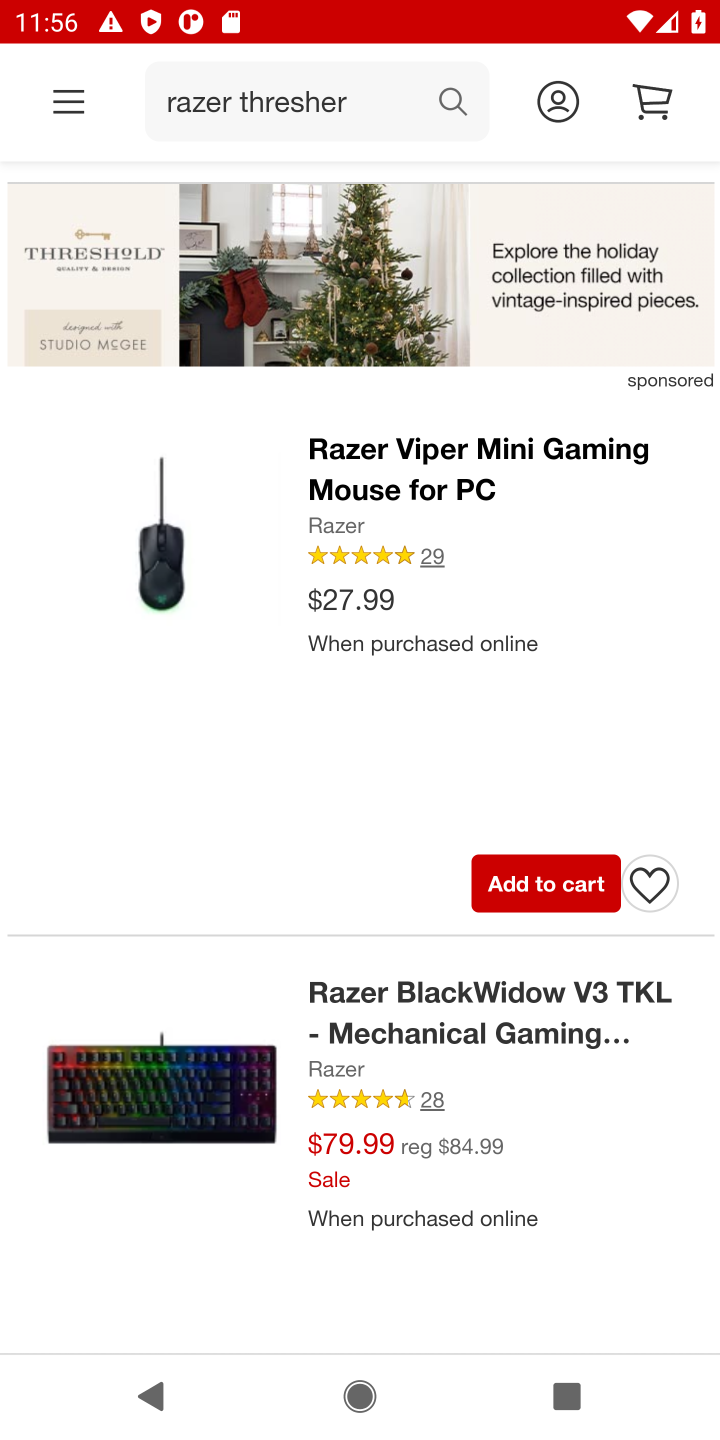
Step 33: drag from (530, 1052) to (534, 360)
Your task to perform on an android device: Add "razer thresher" to the cart on target, then select checkout. Image 34: 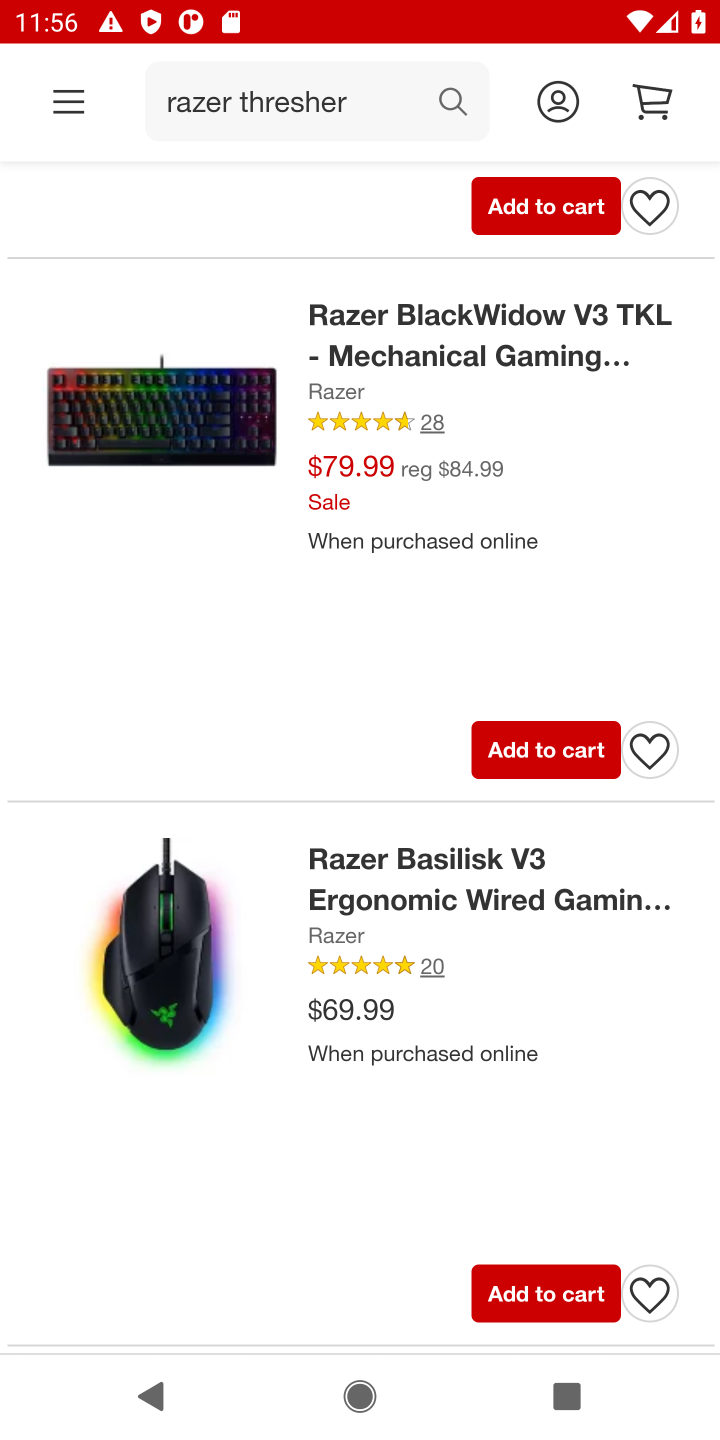
Step 34: drag from (493, 1136) to (440, 273)
Your task to perform on an android device: Add "razer thresher" to the cart on target, then select checkout. Image 35: 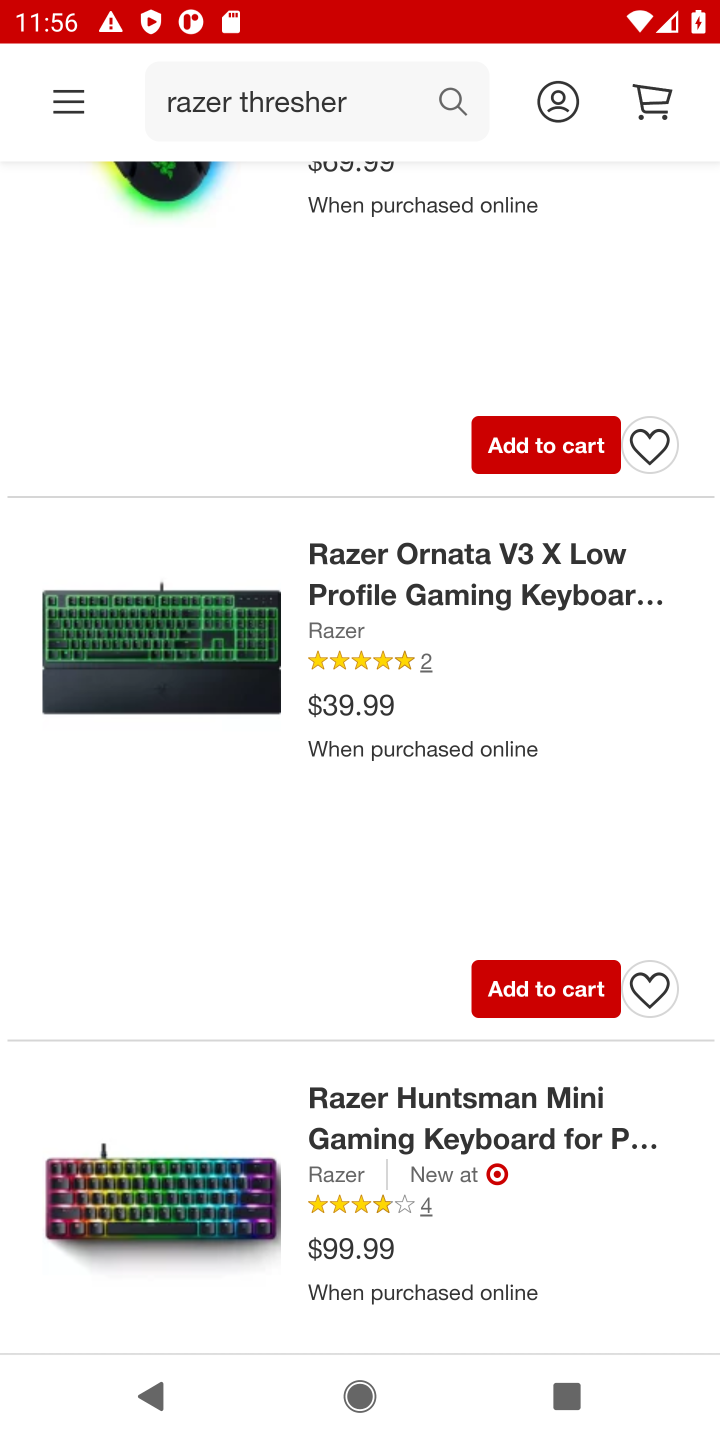
Step 35: drag from (413, 1239) to (465, 359)
Your task to perform on an android device: Add "razer thresher" to the cart on target, then select checkout. Image 36: 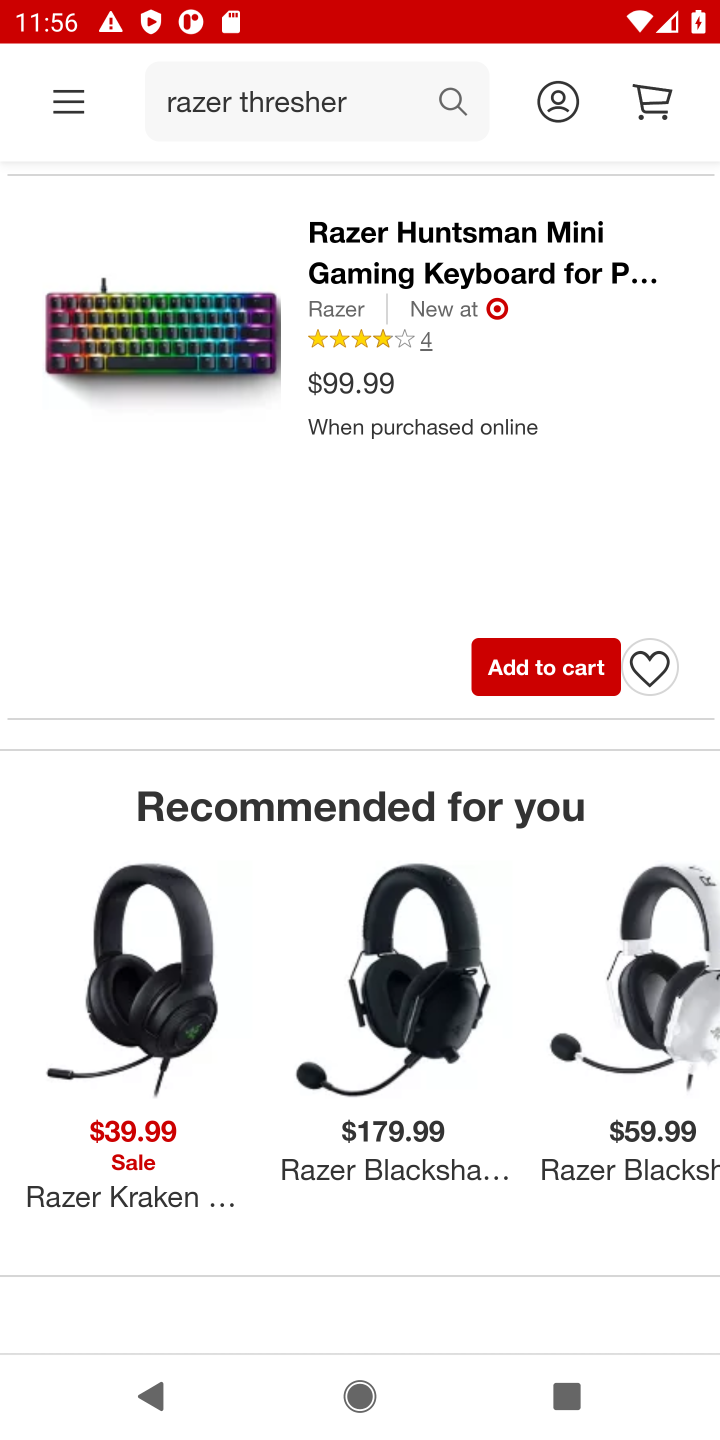
Step 36: drag from (452, 1074) to (478, 389)
Your task to perform on an android device: Add "razer thresher" to the cart on target, then select checkout. Image 37: 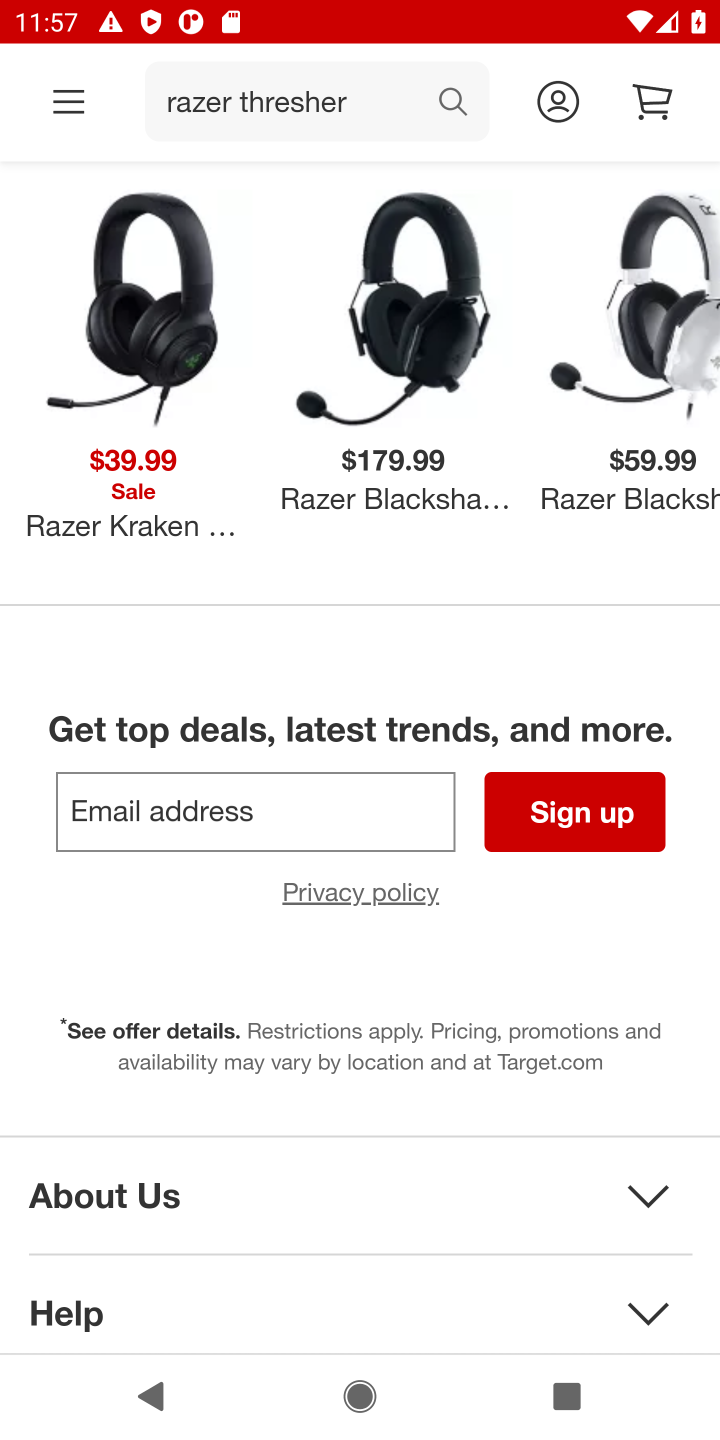
Step 37: press back button
Your task to perform on an android device: Add "razer thresher" to the cart on target, then select checkout. Image 38: 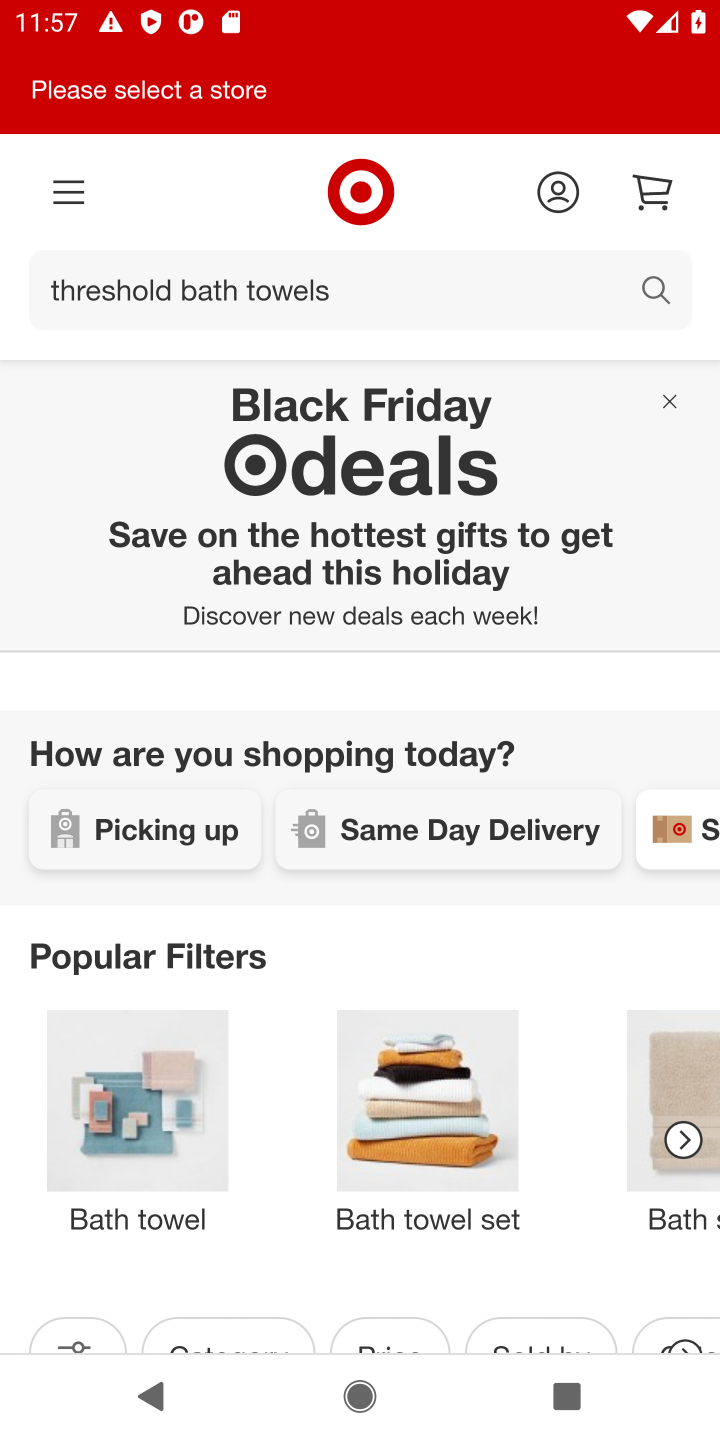
Step 38: click (247, 294)
Your task to perform on an android device: Add "razer thresher" to the cart on target, then select checkout. Image 39: 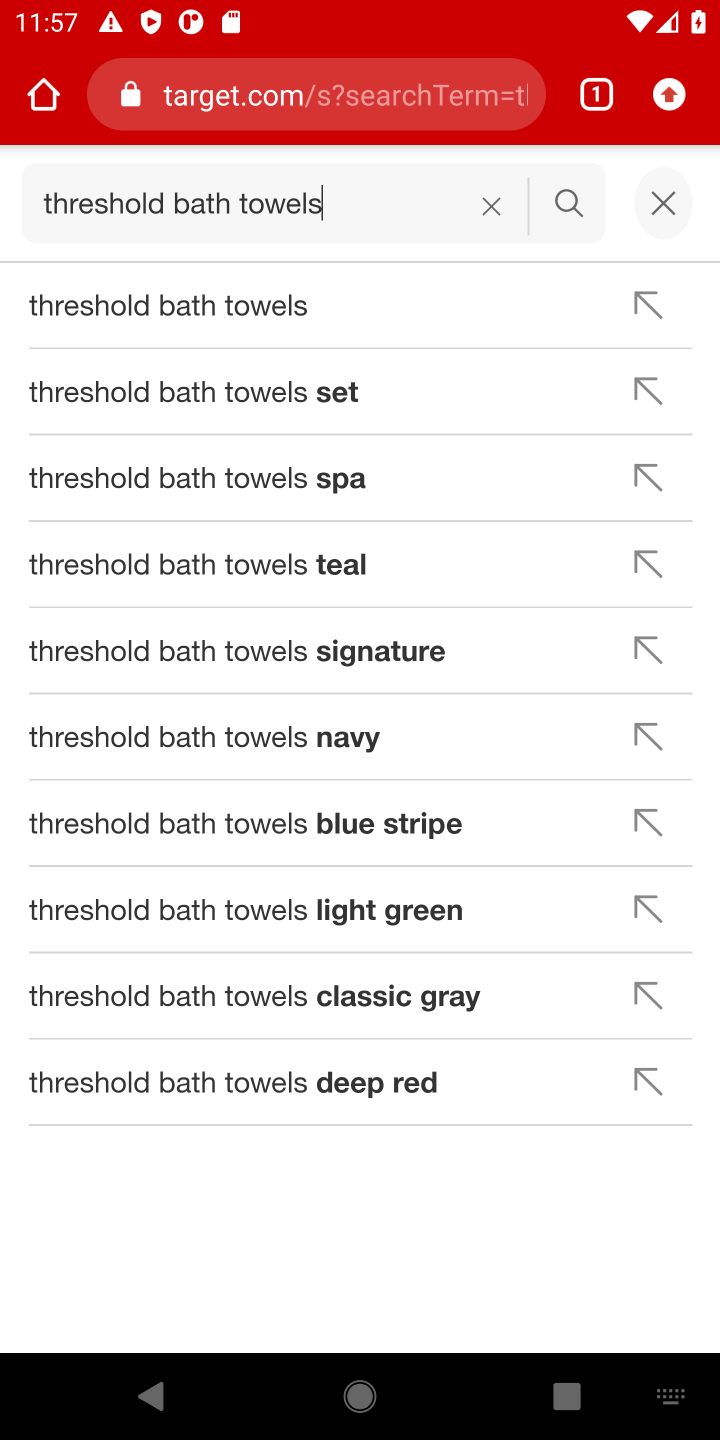
Step 39: click (487, 203)
Your task to perform on an android device: Add "razer thresher" to the cart on target, then select checkout. Image 40: 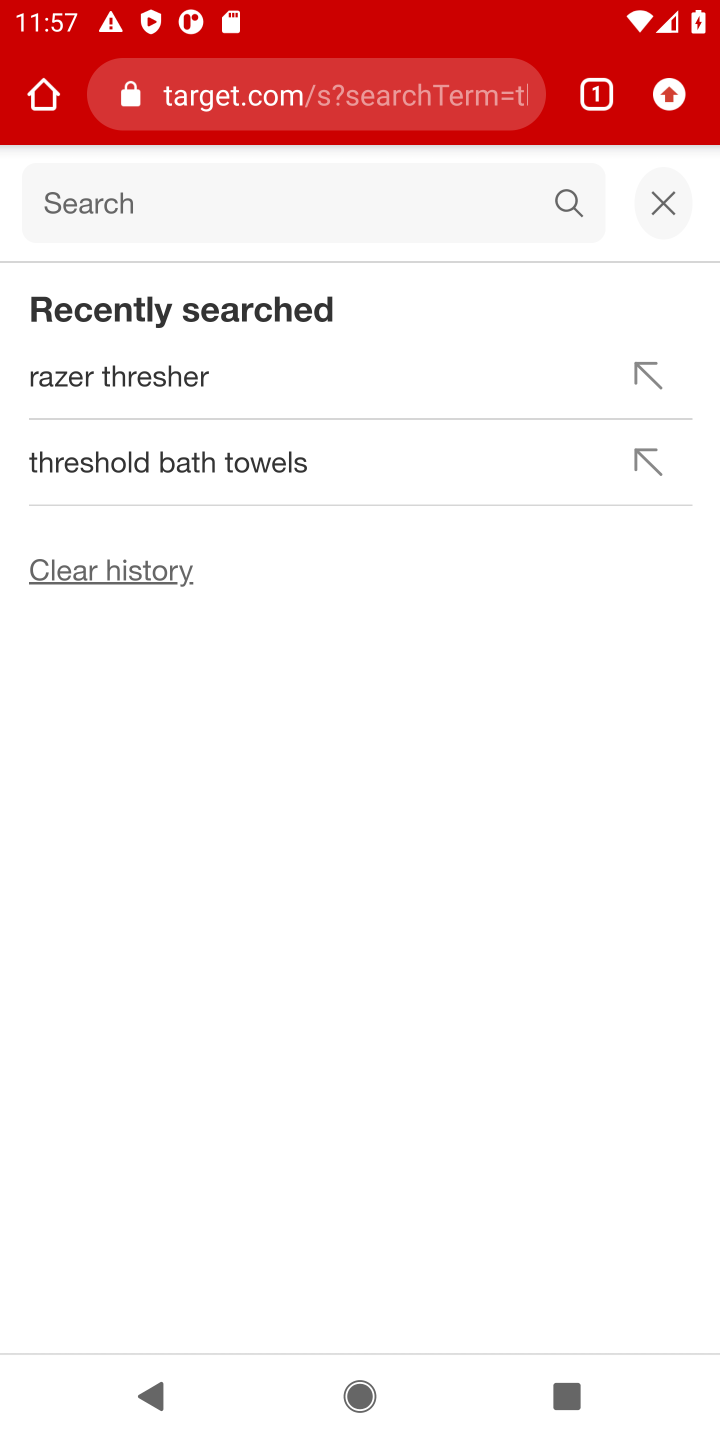
Step 40: click (117, 377)
Your task to perform on an android device: Add "razer thresher" to the cart on target, then select checkout. Image 41: 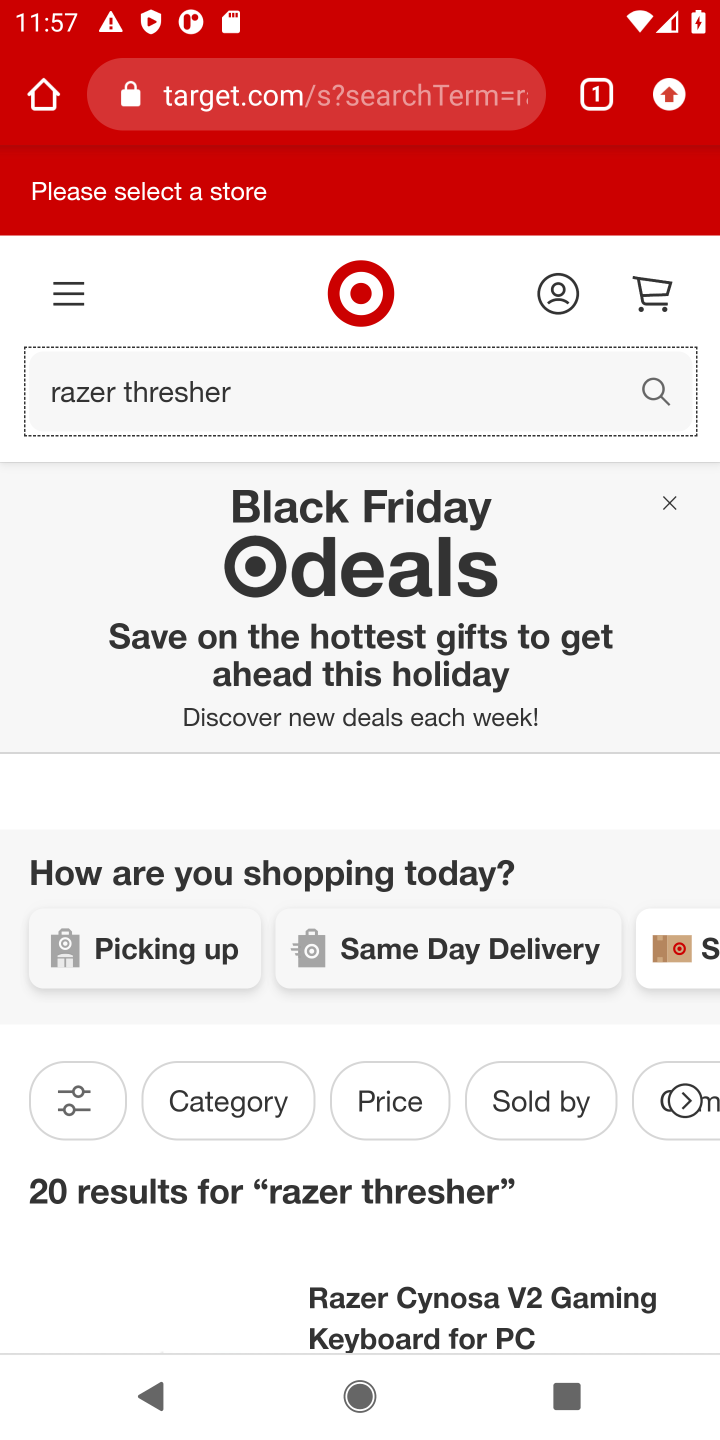
Step 41: drag from (369, 1122) to (436, 581)
Your task to perform on an android device: Add "razer thresher" to the cart on target, then select checkout. Image 42: 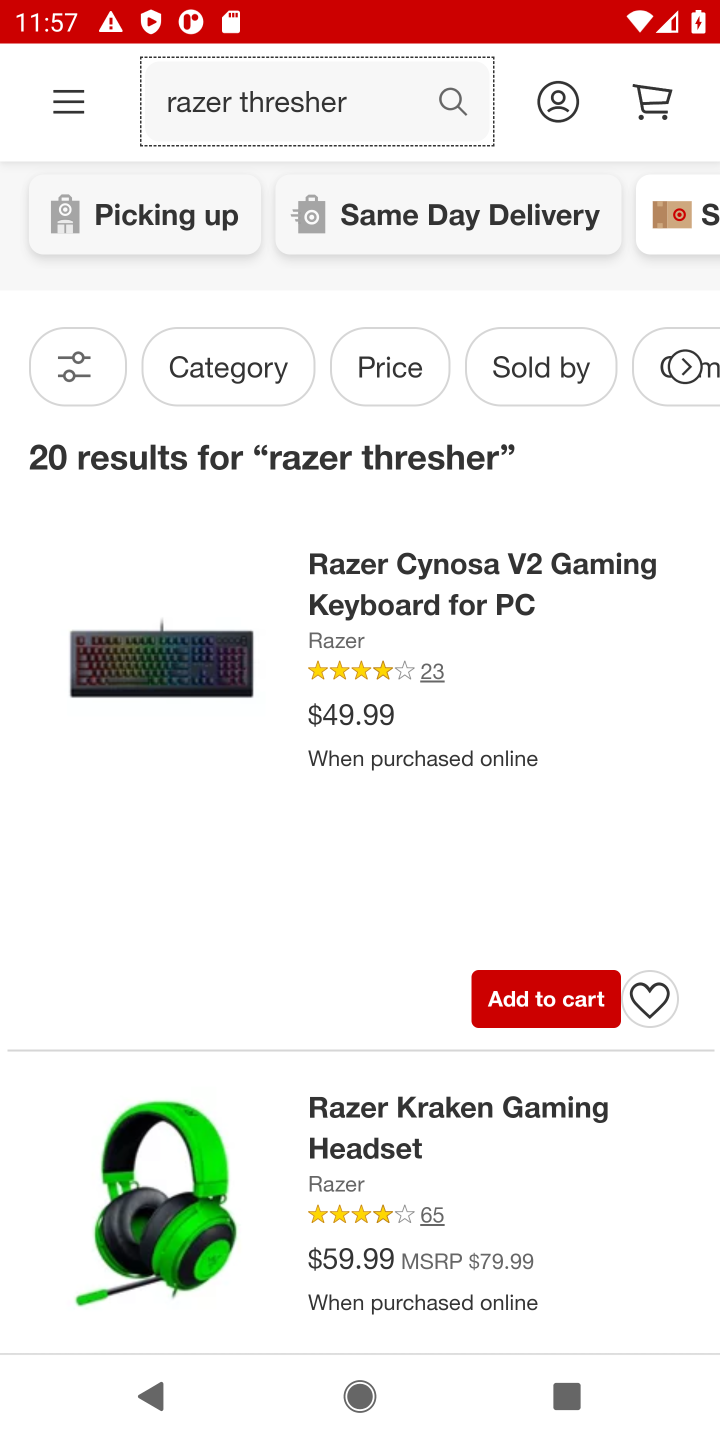
Step 42: click (436, 581)
Your task to perform on an android device: Add "razer thresher" to the cart on target, then select checkout. Image 43: 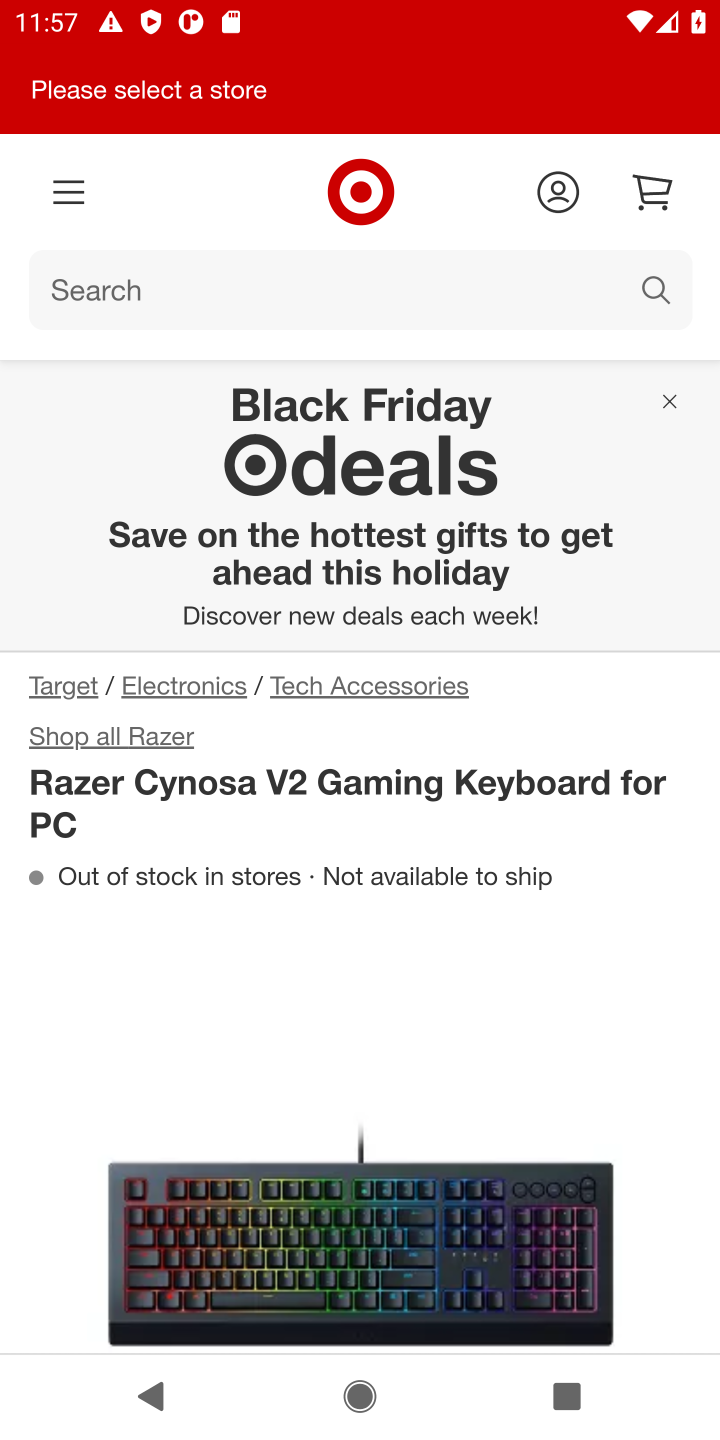
Step 43: drag from (360, 1198) to (357, 546)
Your task to perform on an android device: Add "razer thresher" to the cart on target, then select checkout. Image 44: 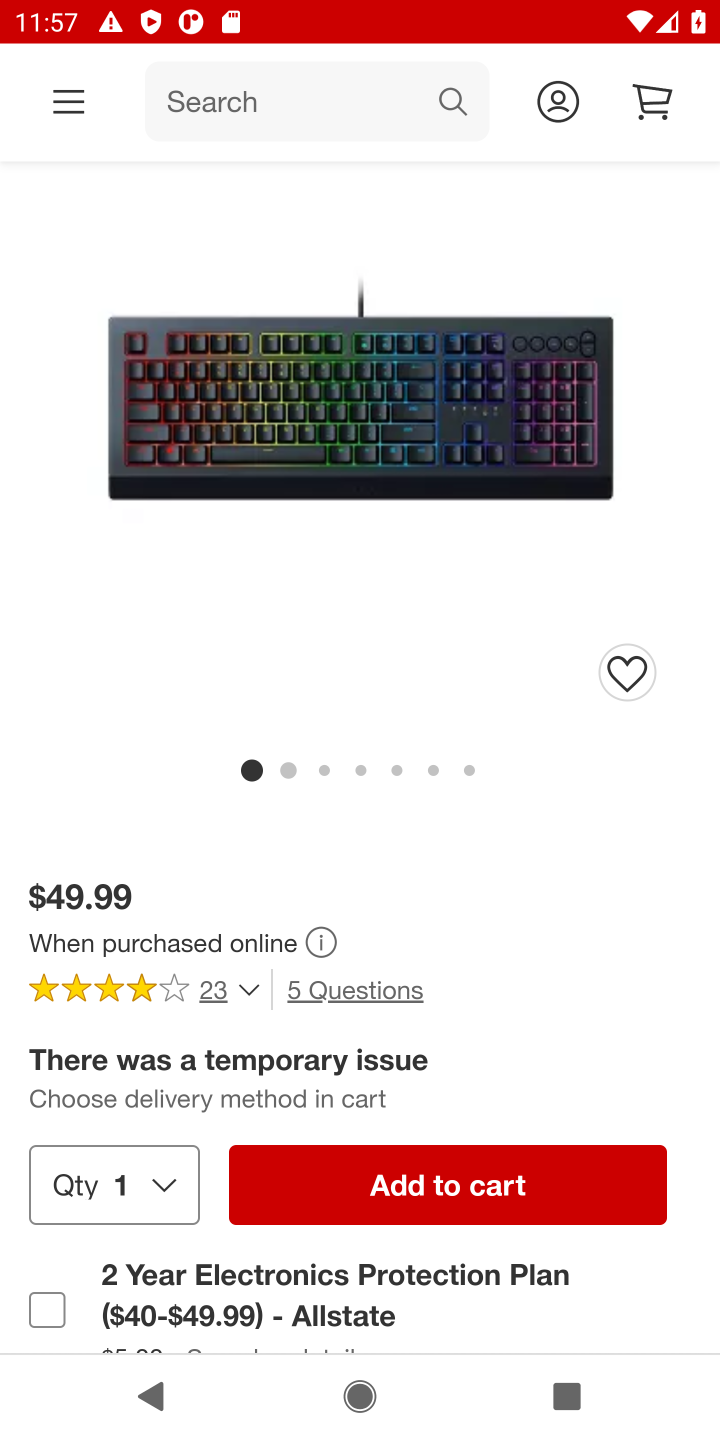
Step 44: click (301, 1201)
Your task to perform on an android device: Add "razer thresher" to the cart on target, then select checkout. Image 45: 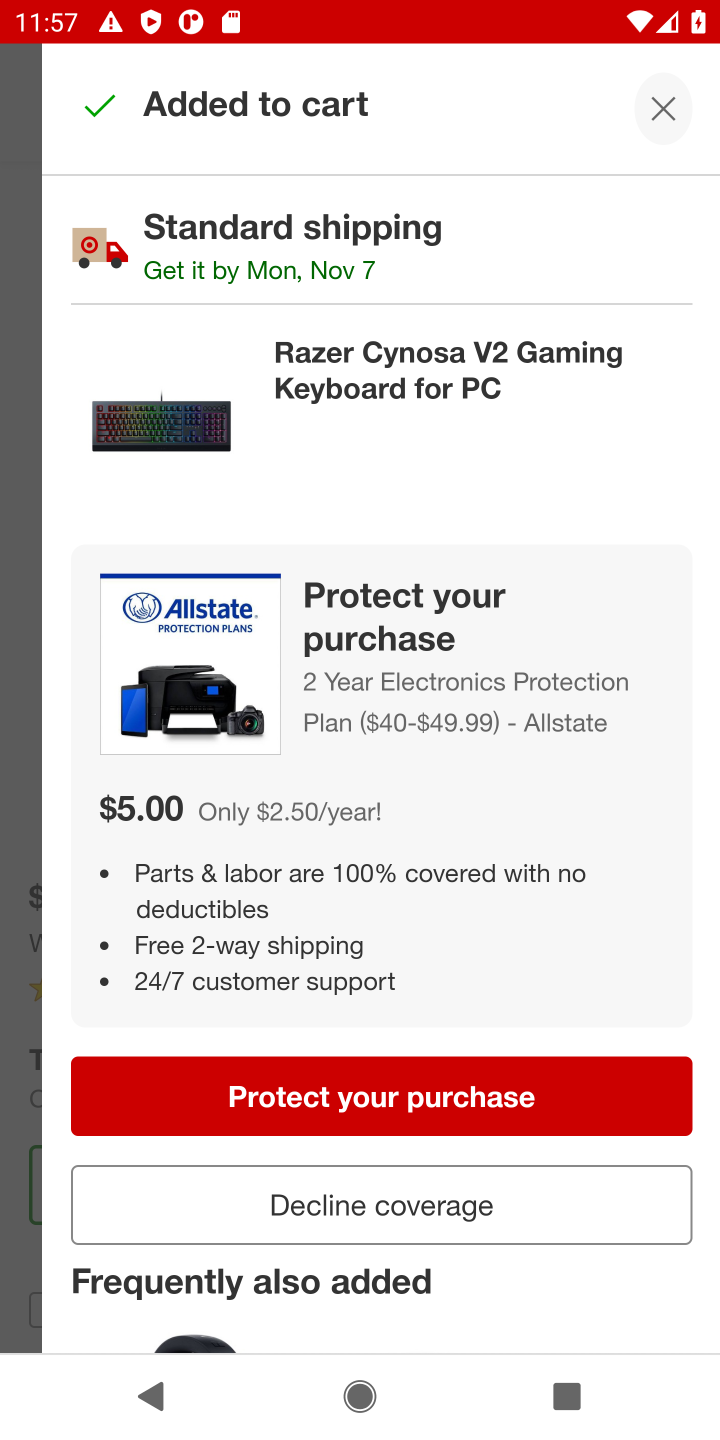
Step 45: click (642, 1187)
Your task to perform on an android device: Add "razer thresher" to the cart on target, then select checkout. Image 46: 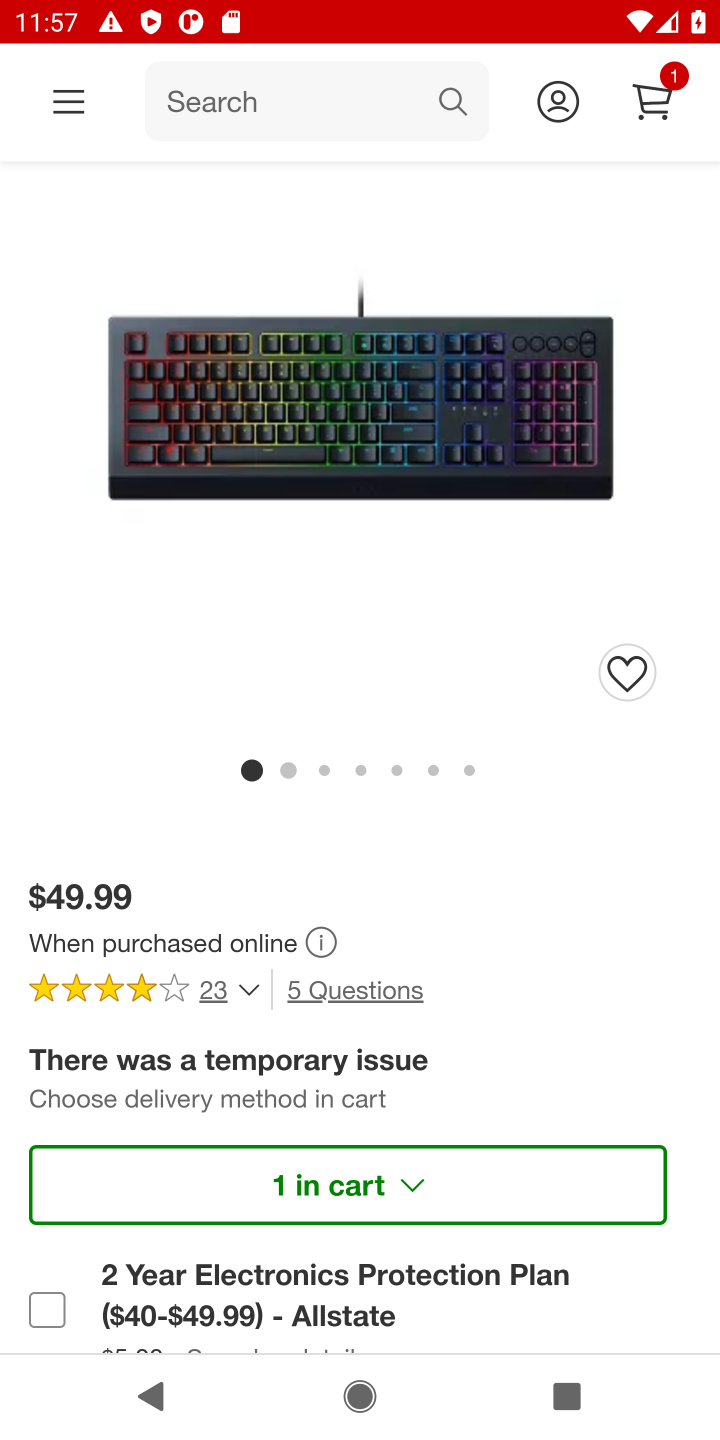
Step 46: task complete